Your task to perform on an android device: Search for alienware aurora on target, select the first entry, and add it to the cart. Image 0: 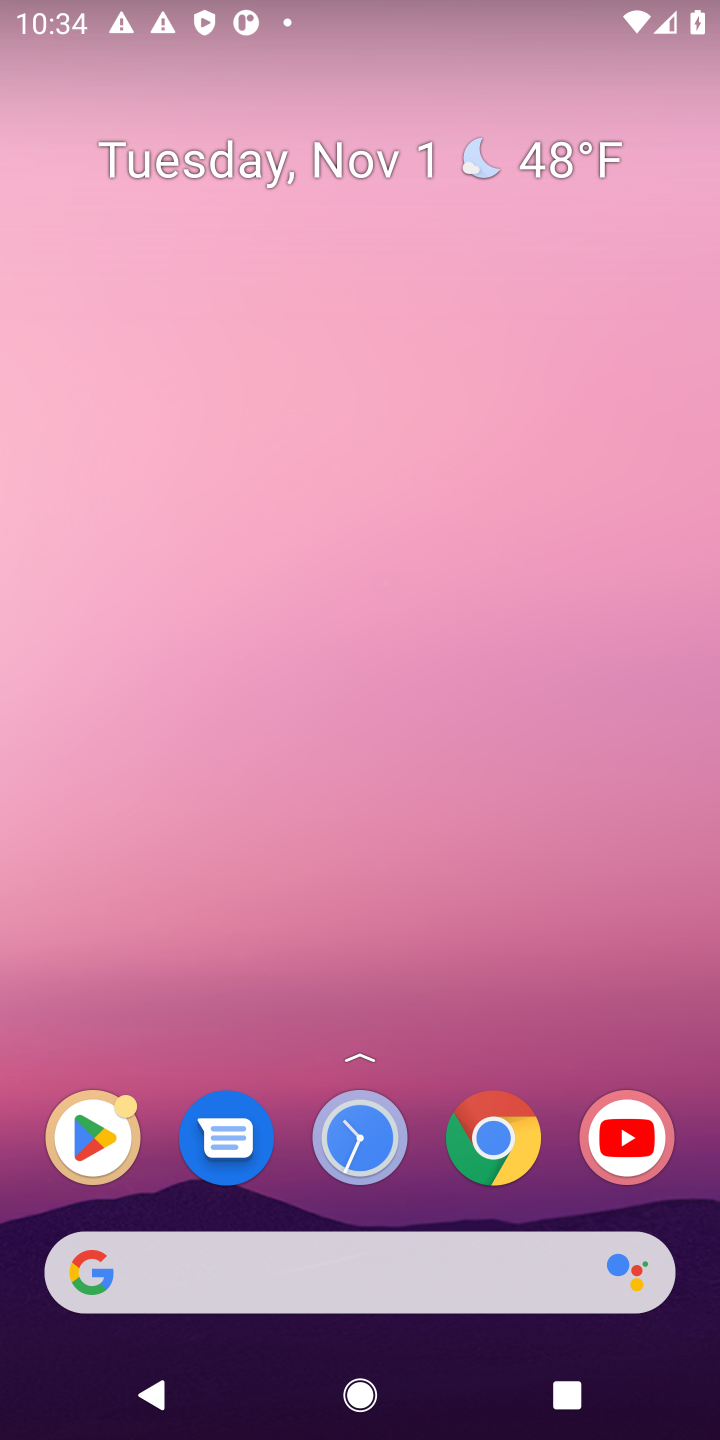
Step 0: click (500, 1151)
Your task to perform on an android device: Search for alienware aurora on target, select the first entry, and add it to the cart. Image 1: 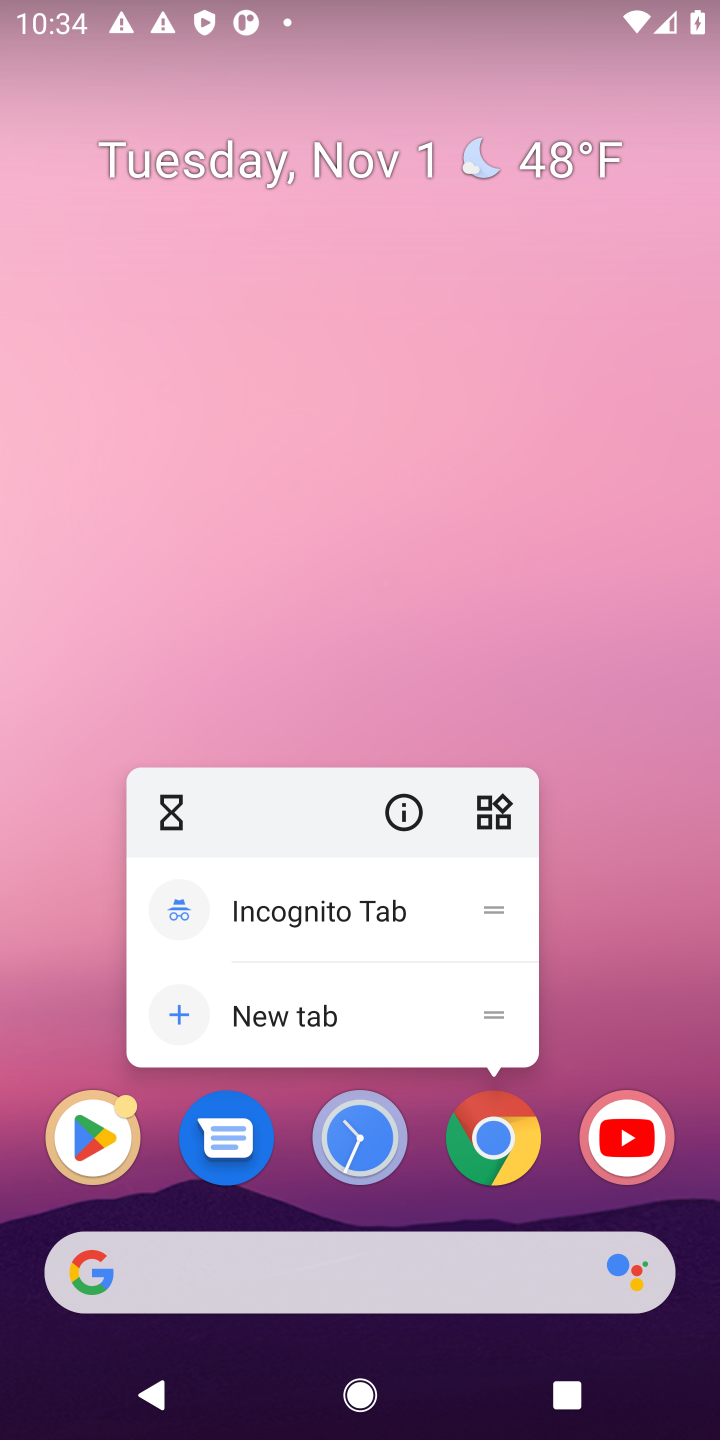
Step 1: click (487, 1145)
Your task to perform on an android device: Search for alienware aurora on target, select the first entry, and add it to the cart. Image 2: 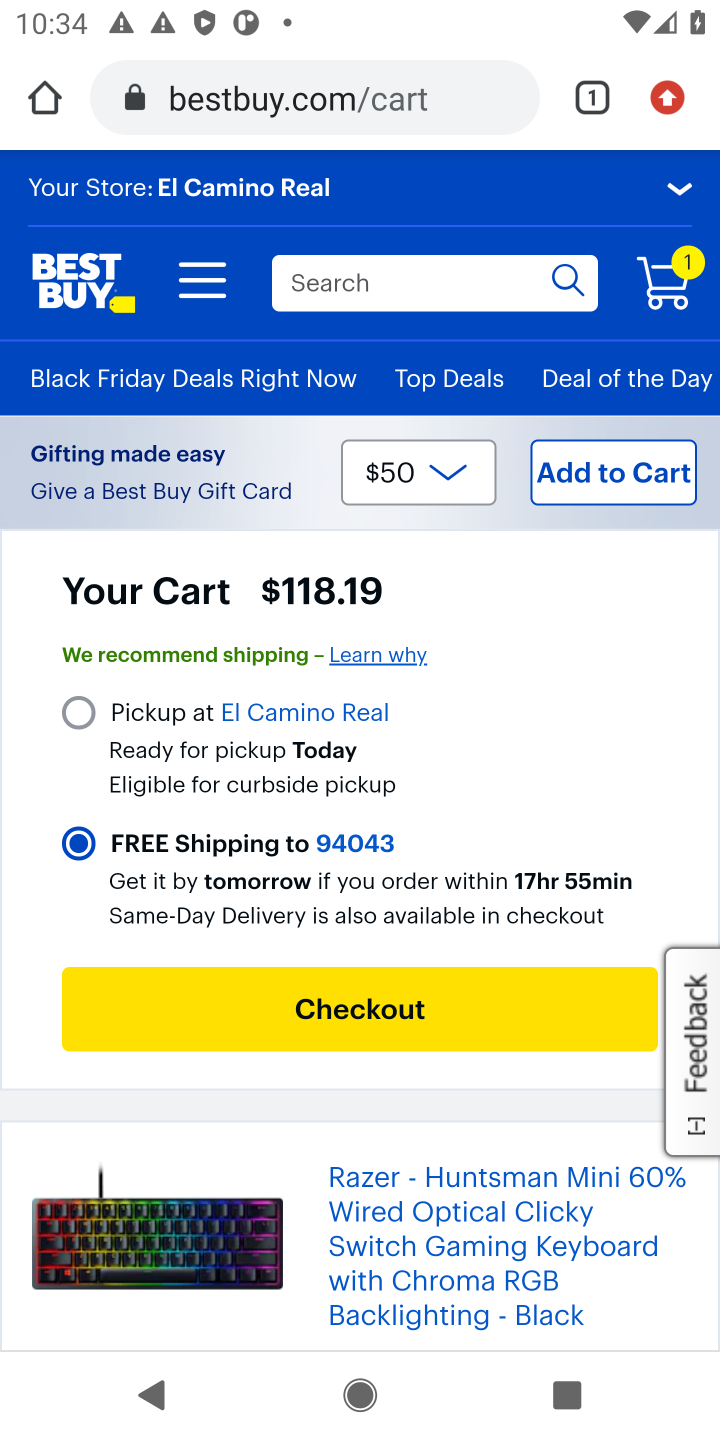
Step 2: click (311, 274)
Your task to perform on an android device: Search for alienware aurora on target, select the first entry, and add it to the cart. Image 3: 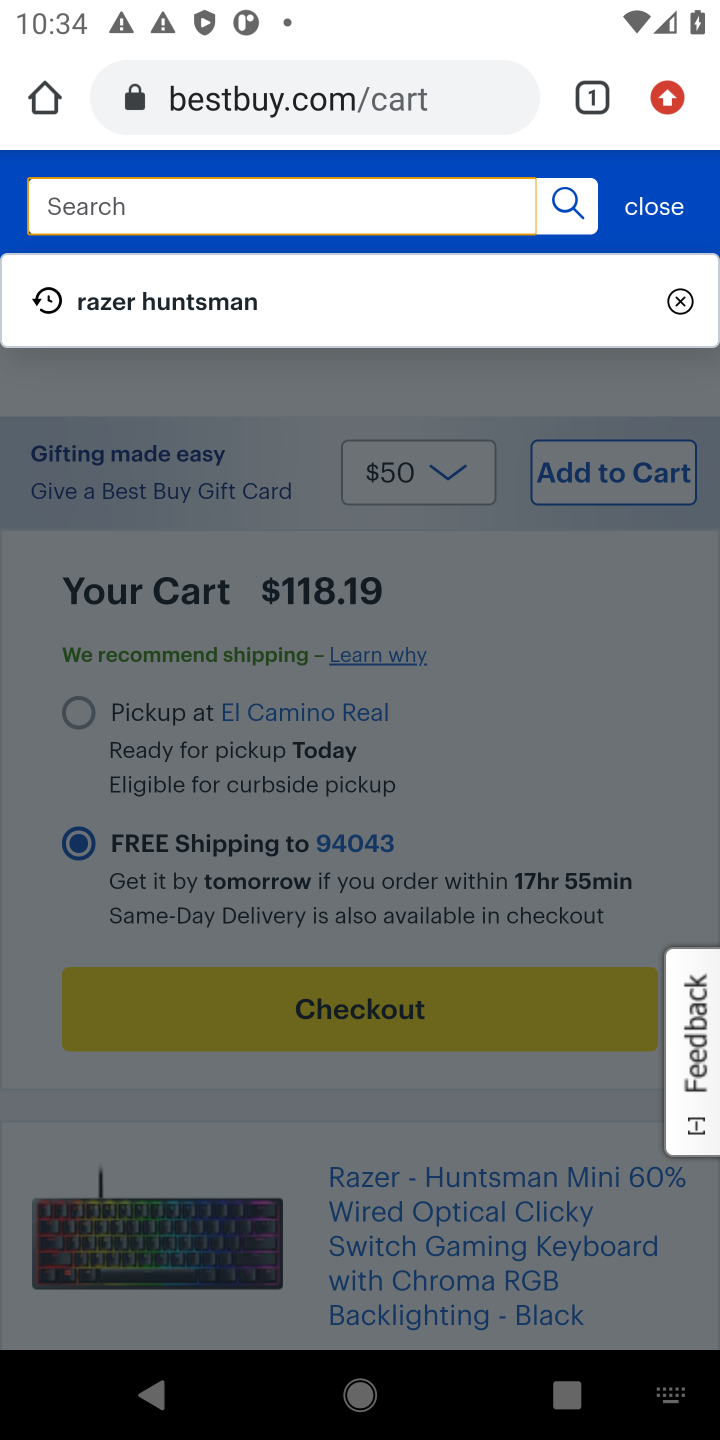
Step 3: type "target"
Your task to perform on an android device: Search for alienware aurora on target, select the first entry, and add it to the cart. Image 4: 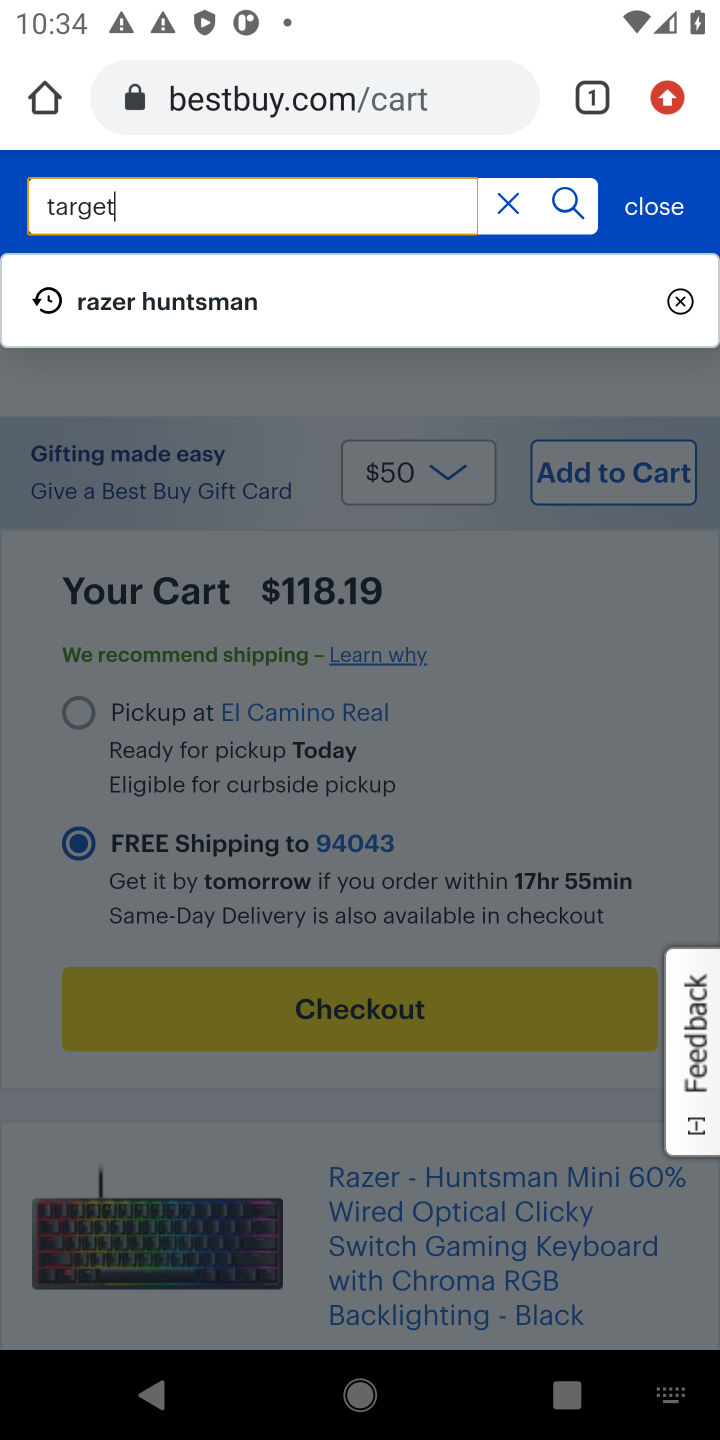
Step 4: type ""
Your task to perform on an android device: Search for alienware aurora on target, select the first entry, and add it to the cart. Image 5: 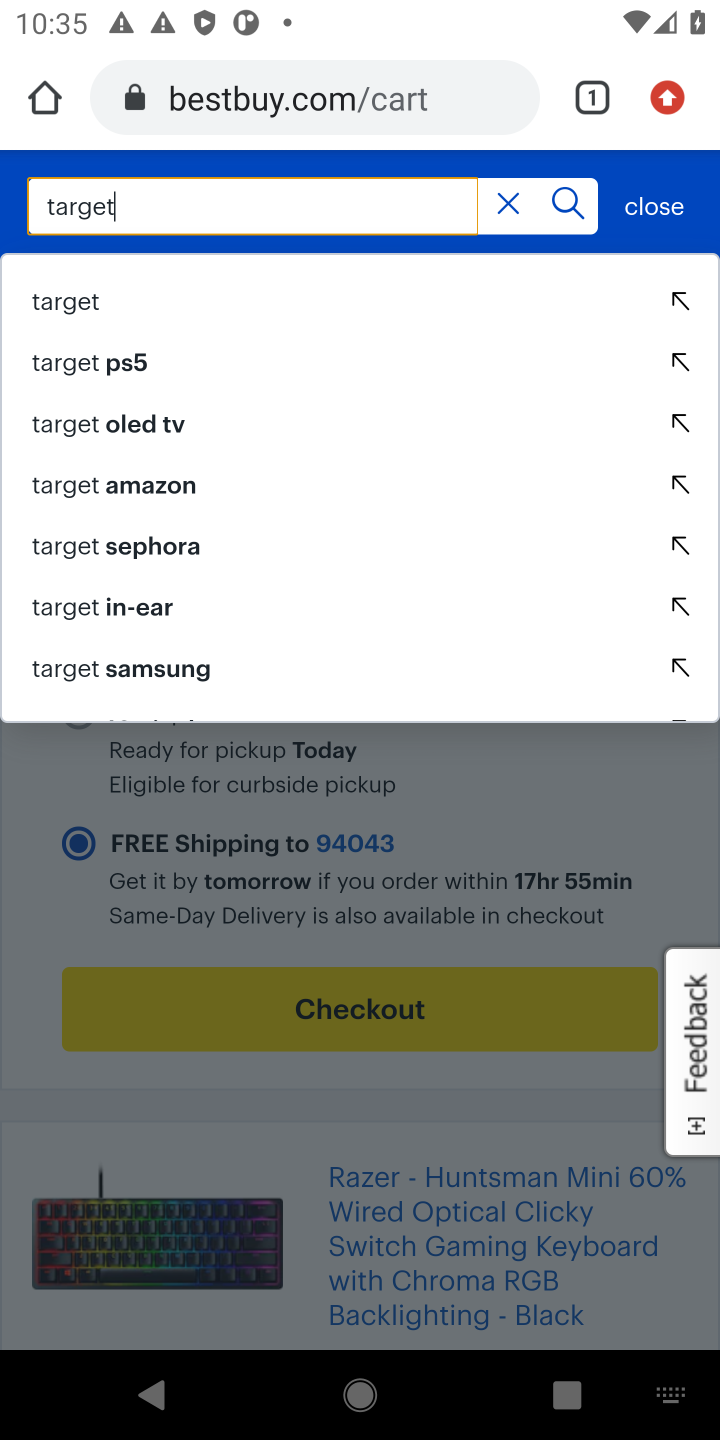
Step 5: click (378, 92)
Your task to perform on an android device: Search for alienware aurora on target, select the first entry, and add it to the cart. Image 6: 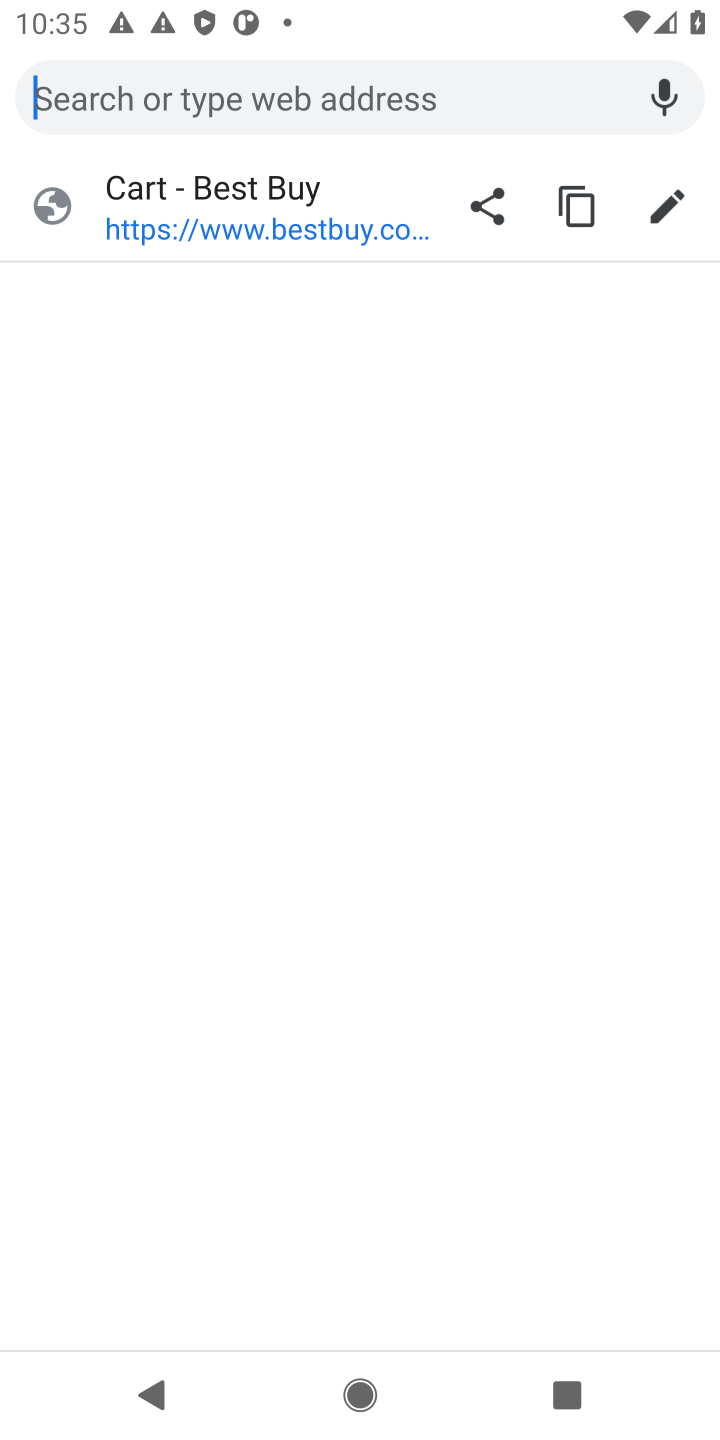
Step 6: type "target"
Your task to perform on an android device: Search for alienware aurora on target, select the first entry, and add it to the cart. Image 7: 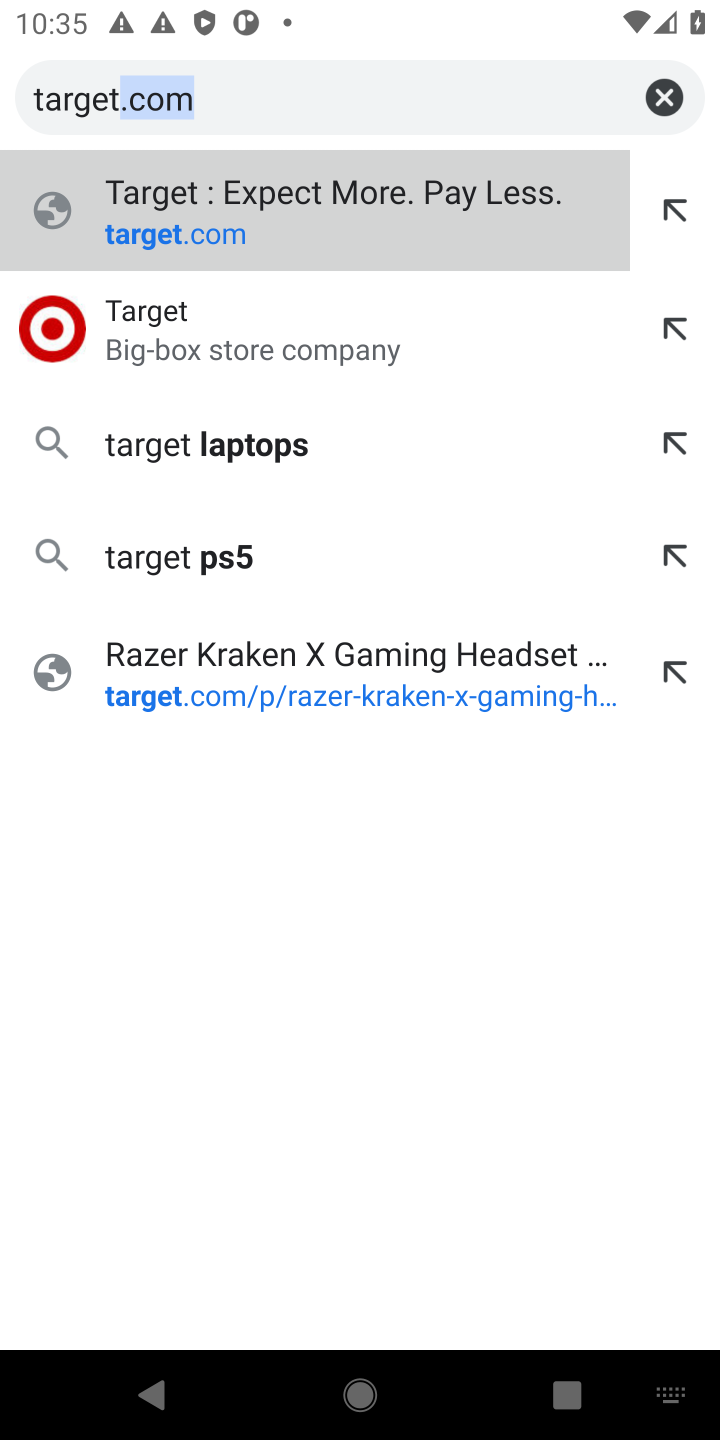
Step 7: click (330, 364)
Your task to perform on an android device: Search for alienware aurora on target, select the first entry, and add it to the cart. Image 8: 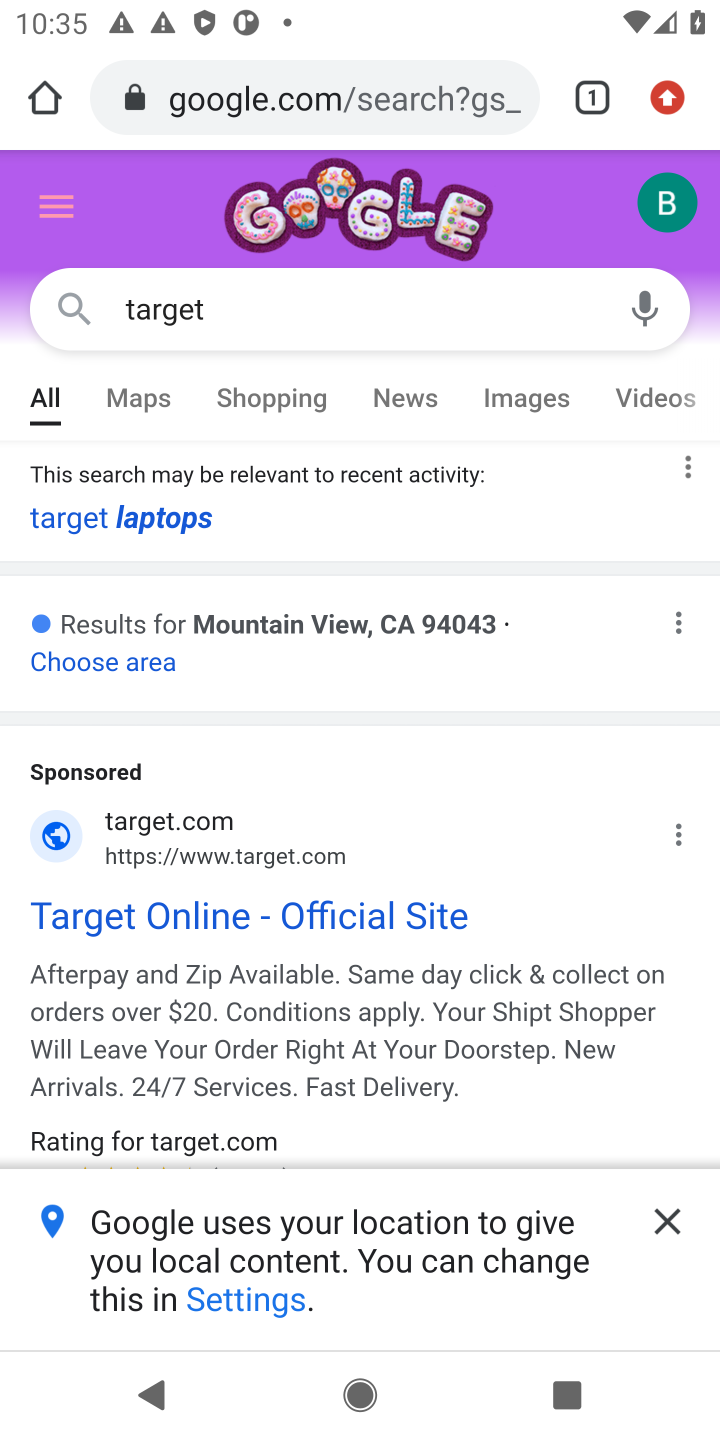
Step 8: click (236, 904)
Your task to perform on an android device: Search for alienware aurora on target, select the first entry, and add it to the cart. Image 9: 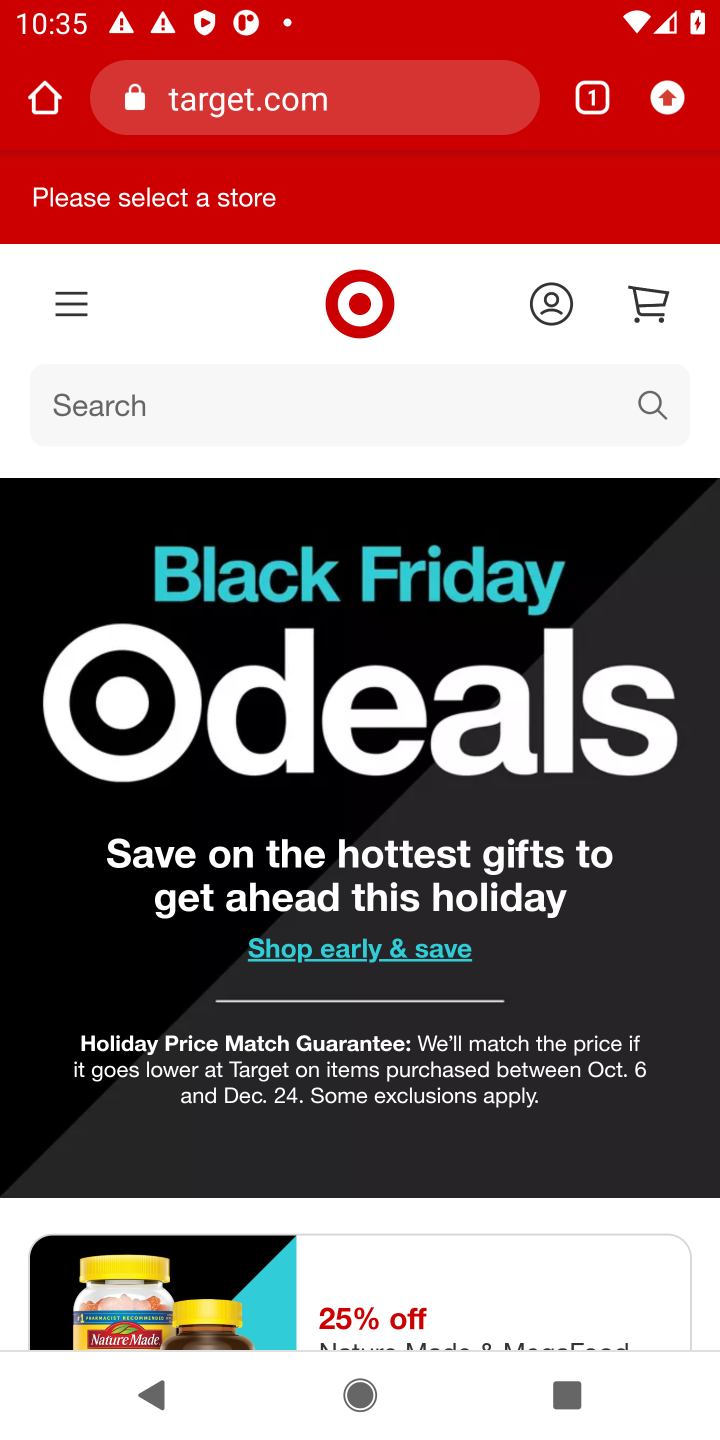
Step 9: click (238, 403)
Your task to perform on an android device: Search for alienware aurora on target, select the first entry, and add it to the cart. Image 10: 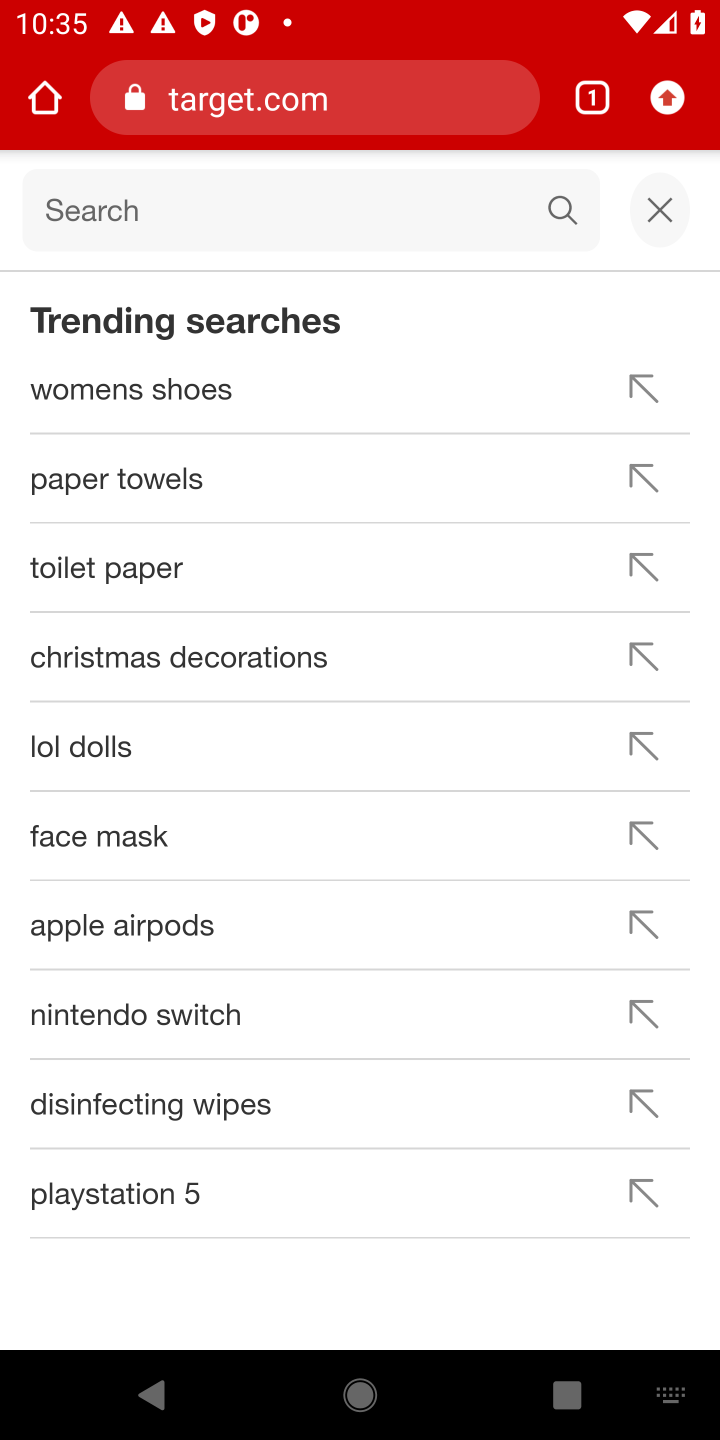
Step 10: type " alienware aurora"
Your task to perform on an android device: Search for alienware aurora on target, select the first entry, and add it to the cart. Image 11: 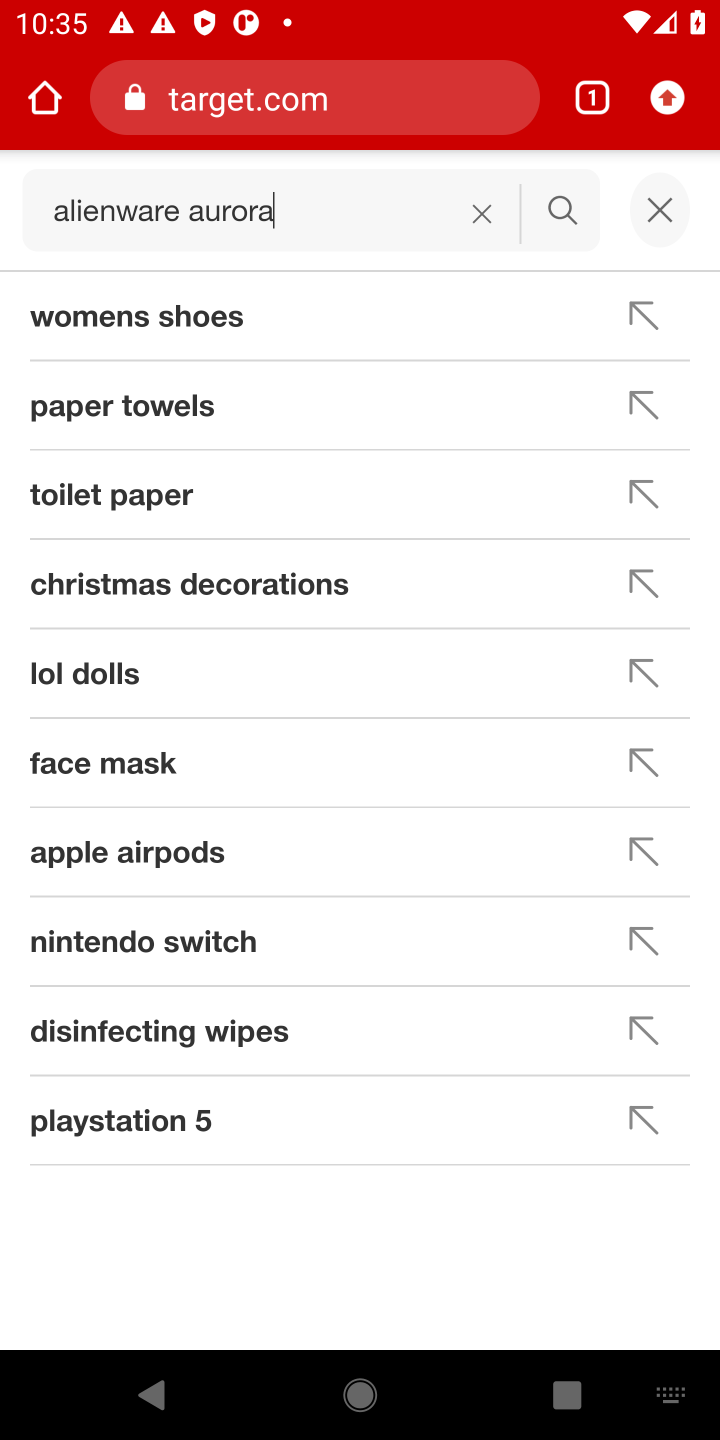
Step 11: type ""
Your task to perform on an android device: Search for alienware aurora on target, select the first entry, and add it to the cart. Image 12: 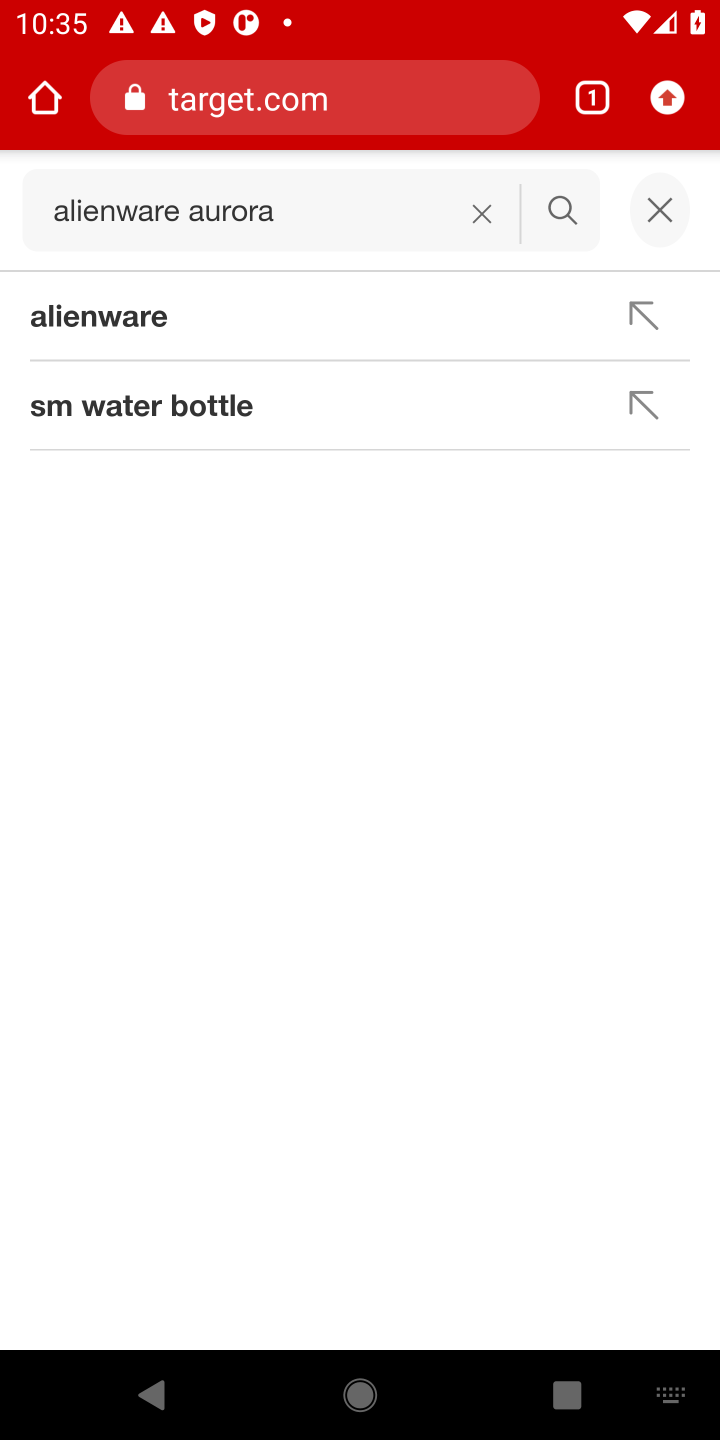
Step 12: press enter
Your task to perform on an android device: Search for alienware aurora on target, select the first entry, and add it to the cart. Image 13: 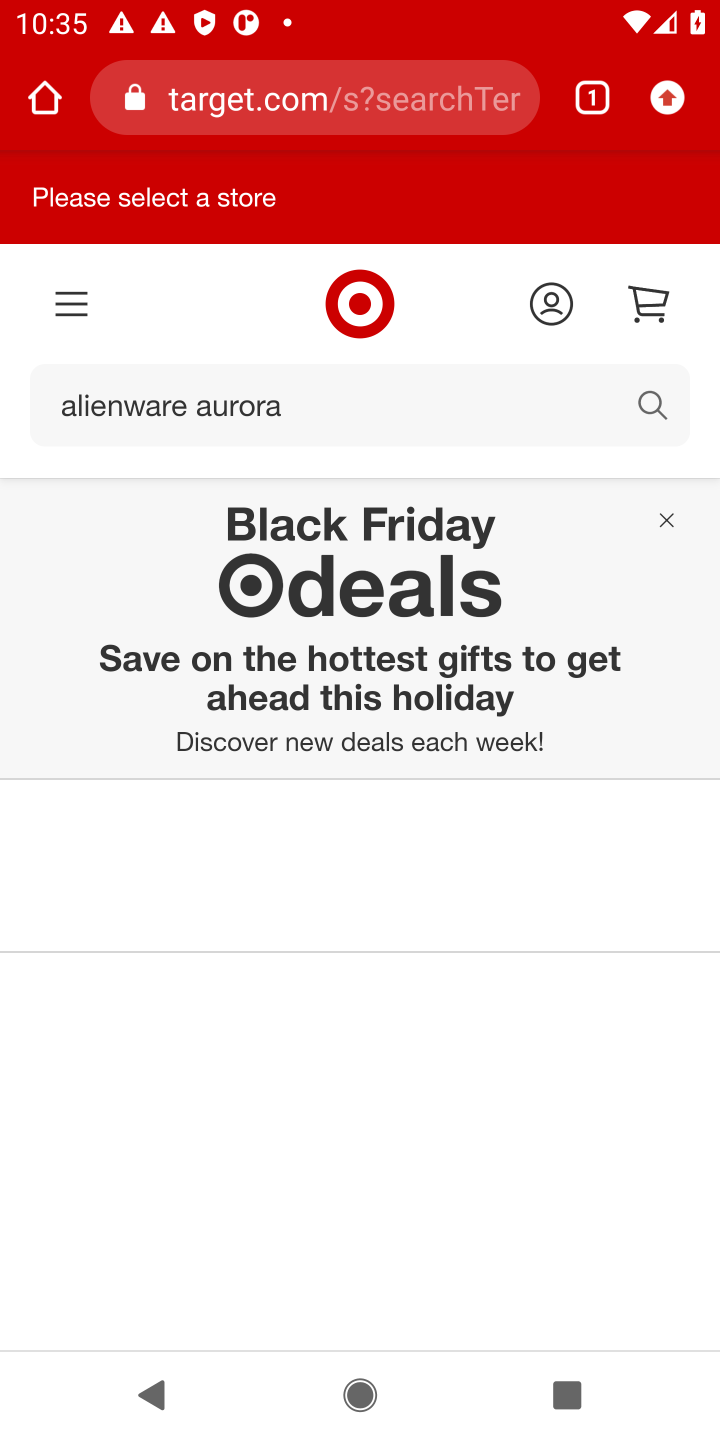
Step 13: click (570, 213)
Your task to perform on an android device: Search for alienware aurora on target, select the first entry, and add it to the cart. Image 14: 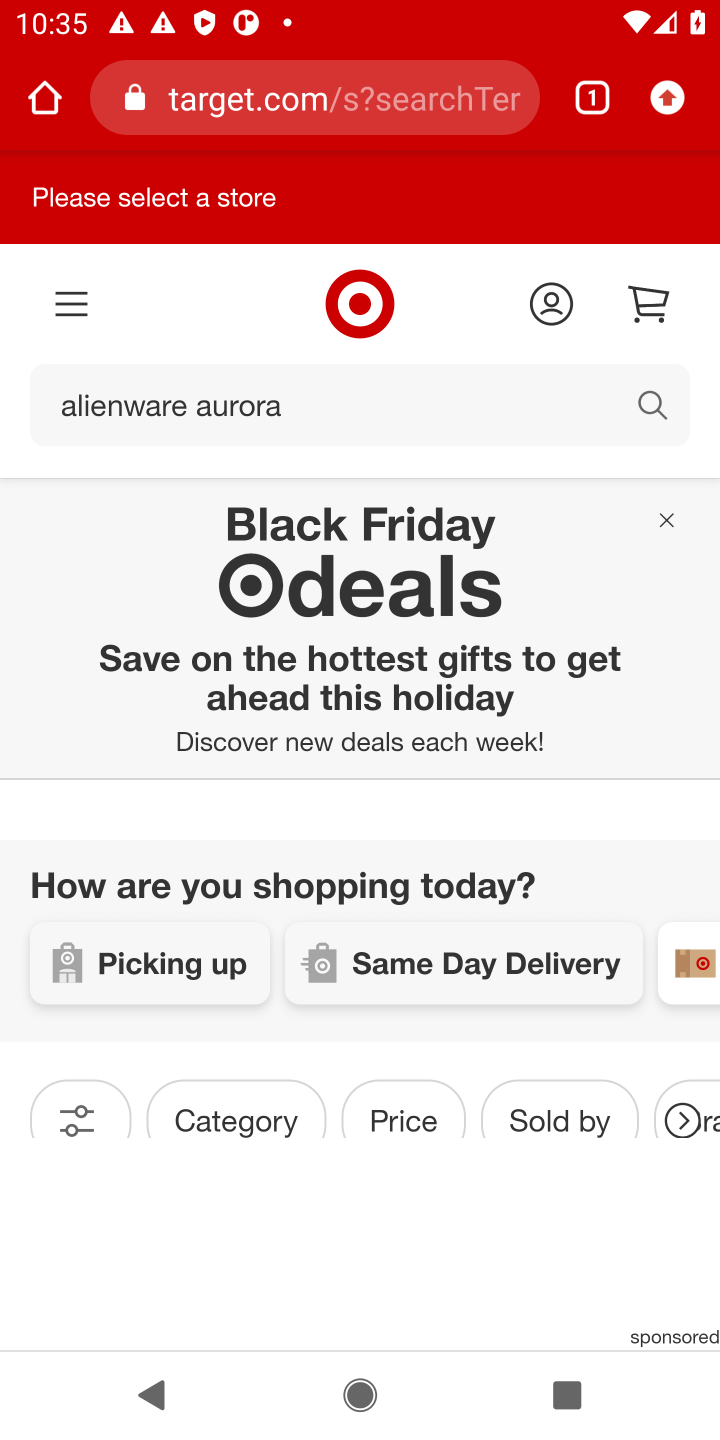
Step 14: click (636, 406)
Your task to perform on an android device: Search for alienware aurora on target, select the first entry, and add it to the cart. Image 15: 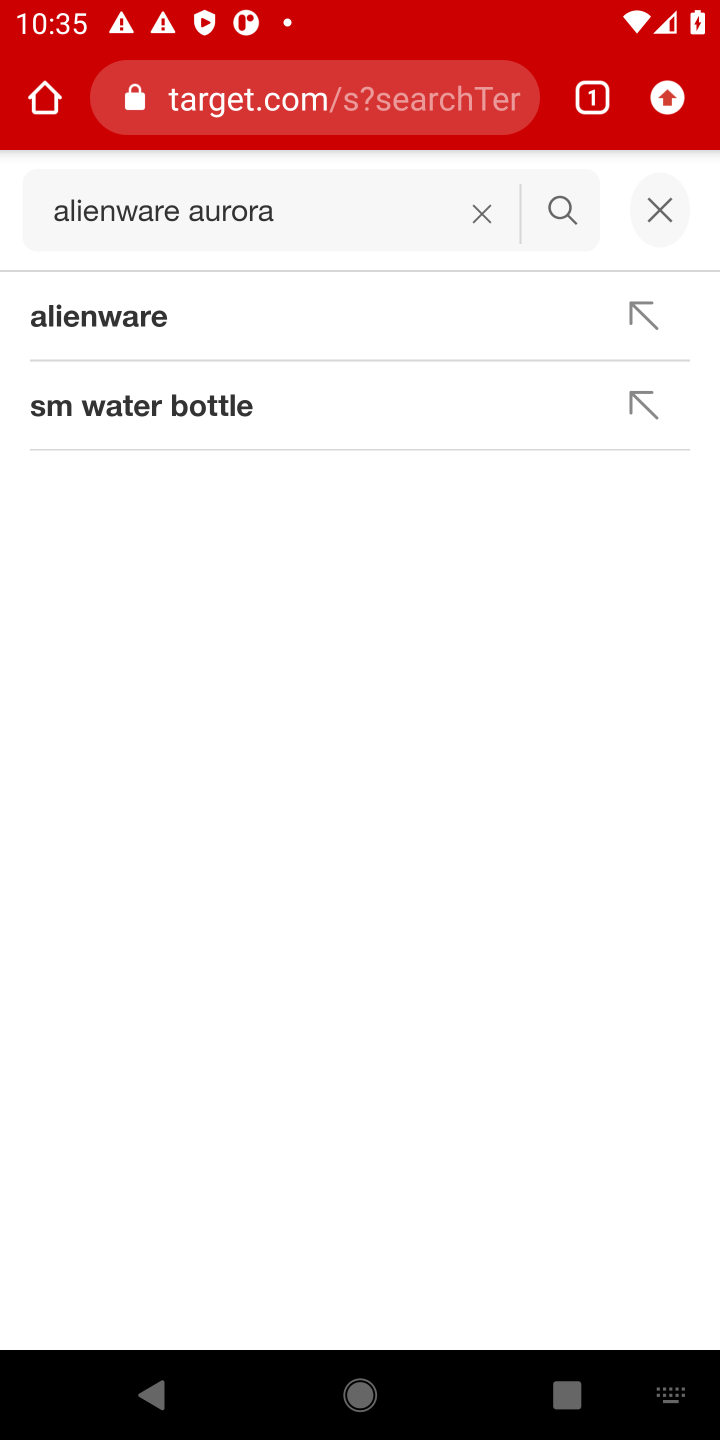
Step 15: click (568, 222)
Your task to perform on an android device: Search for alienware aurora on target, select the first entry, and add it to the cart. Image 16: 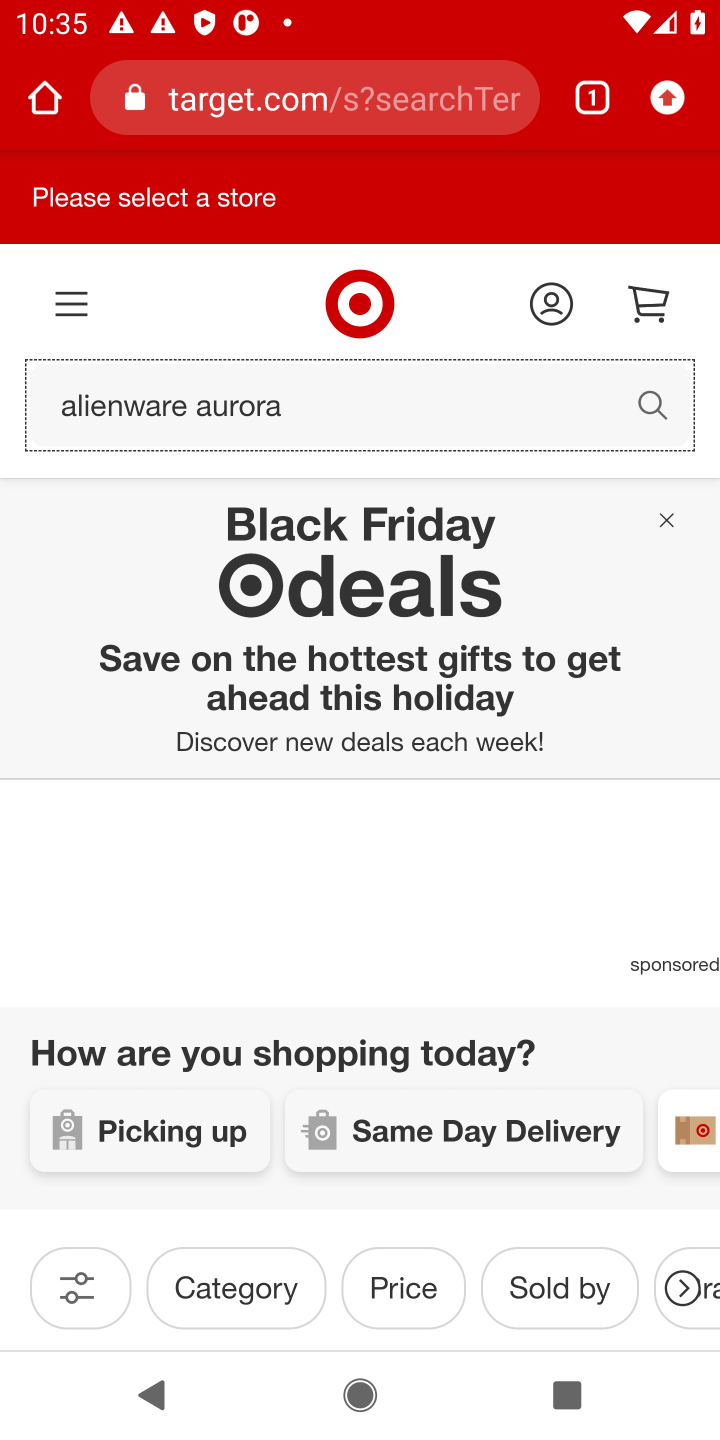
Step 16: drag from (418, 933) to (433, 357)
Your task to perform on an android device: Search for alienware aurora on target, select the first entry, and add it to the cart. Image 17: 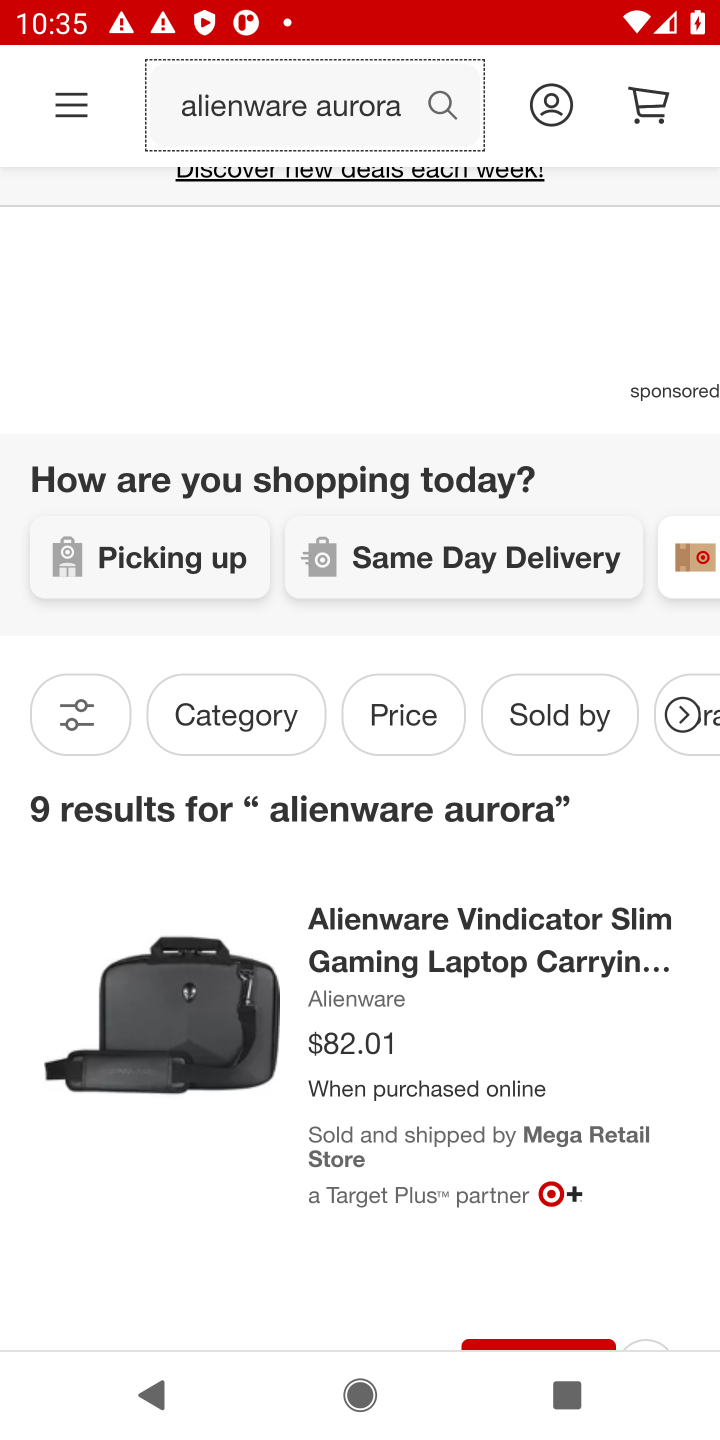
Step 17: click (463, 442)
Your task to perform on an android device: Search for alienware aurora on target, select the first entry, and add it to the cart. Image 18: 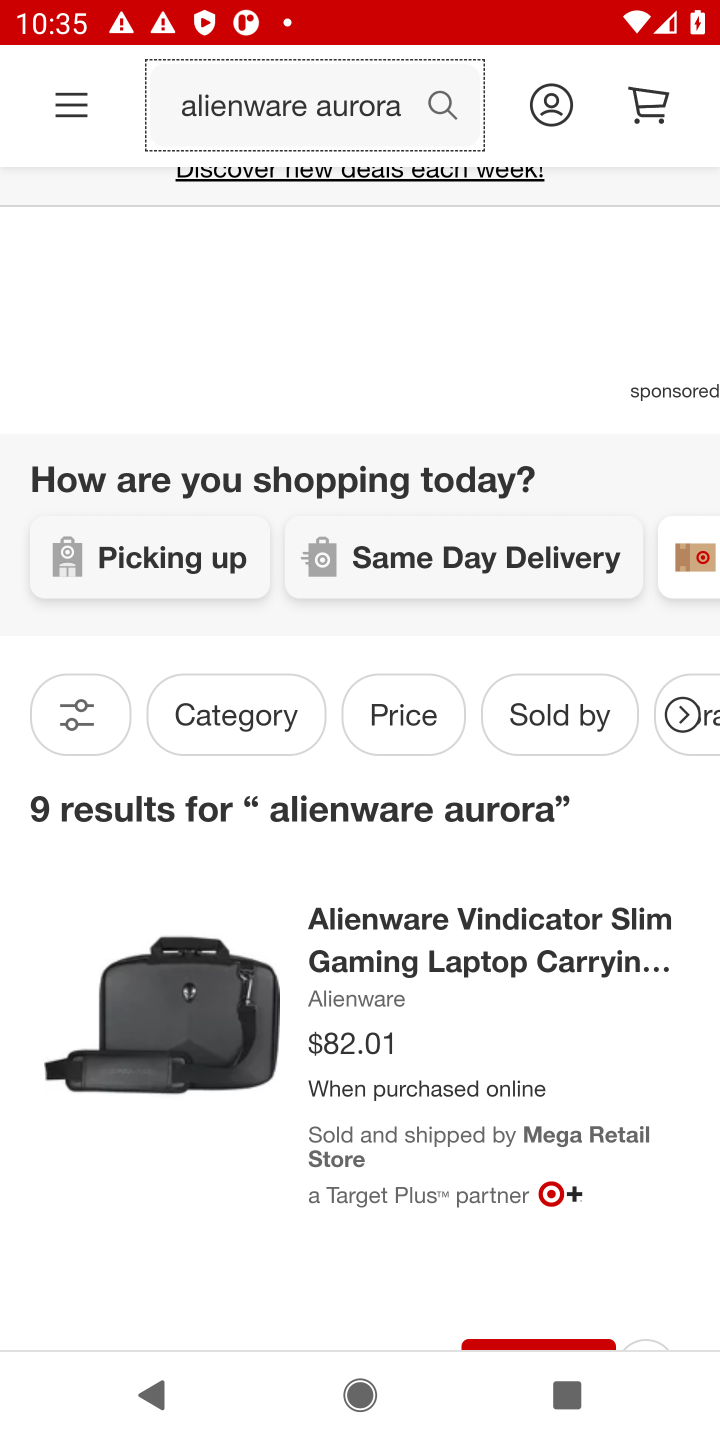
Step 18: drag from (502, 854) to (532, 437)
Your task to perform on an android device: Search for alienware aurora on target, select the first entry, and add it to the cart. Image 19: 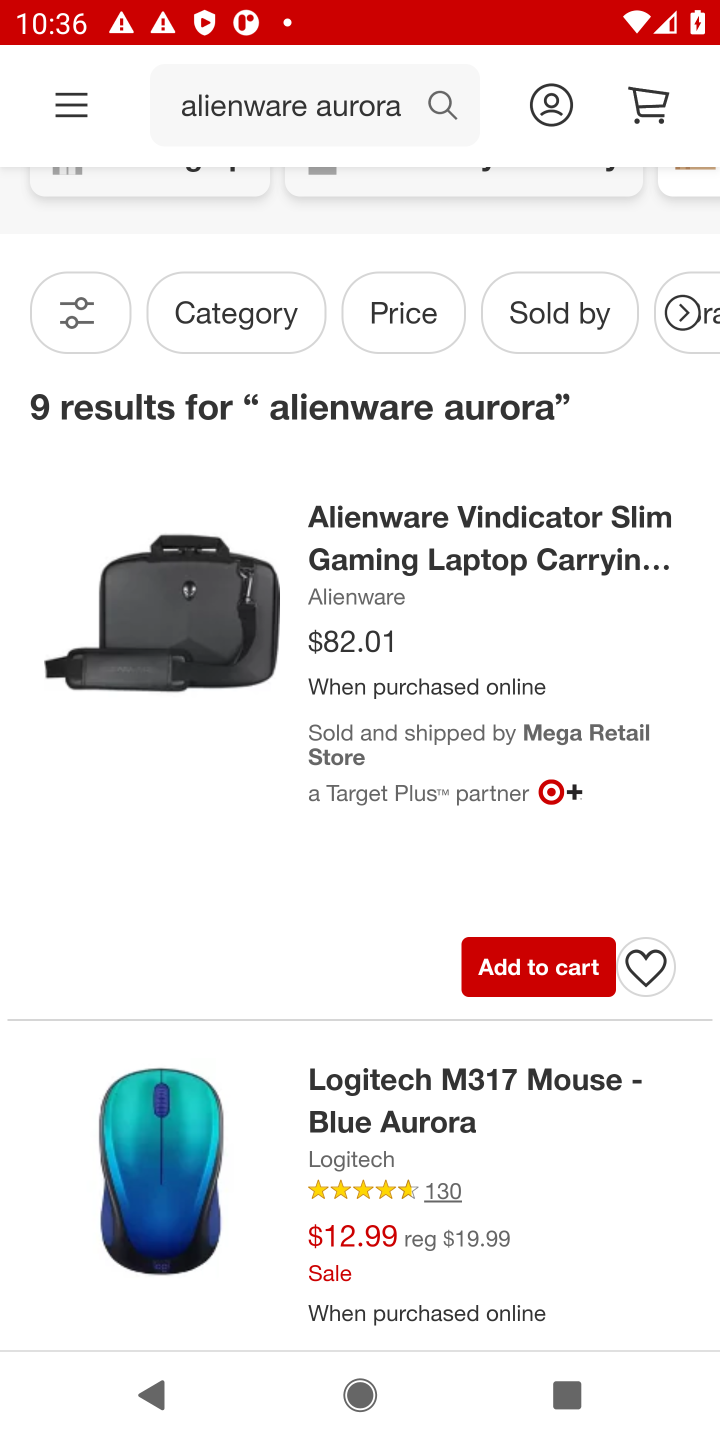
Step 19: drag from (453, 1304) to (518, 542)
Your task to perform on an android device: Search for alienware aurora on target, select the first entry, and add it to the cart. Image 20: 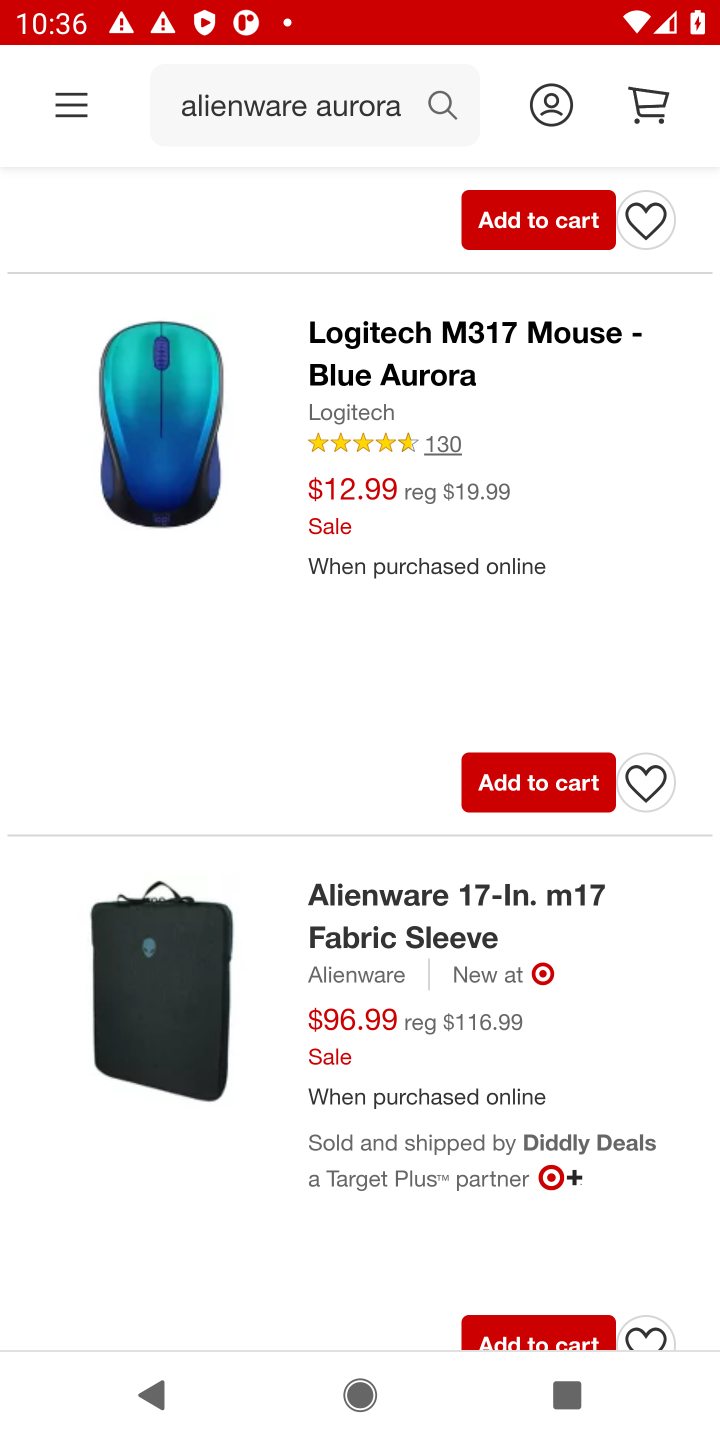
Step 20: drag from (447, 1180) to (444, 588)
Your task to perform on an android device: Search for alienware aurora on target, select the first entry, and add it to the cart. Image 21: 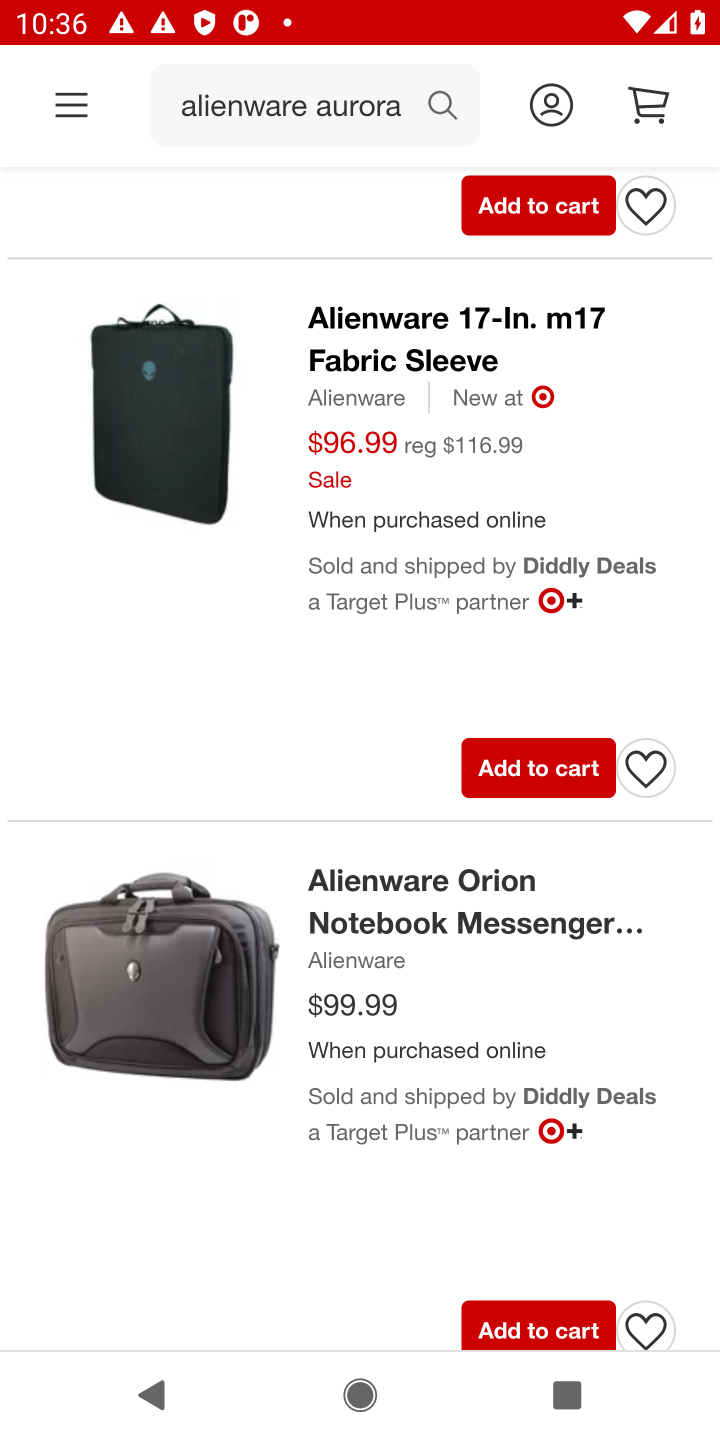
Step 21: drag from (411, 1121) to (500, 318)
Your task to perform on an android device: Search for alienware aurora on target, select the first entry, and add it to the cart. Image 22: 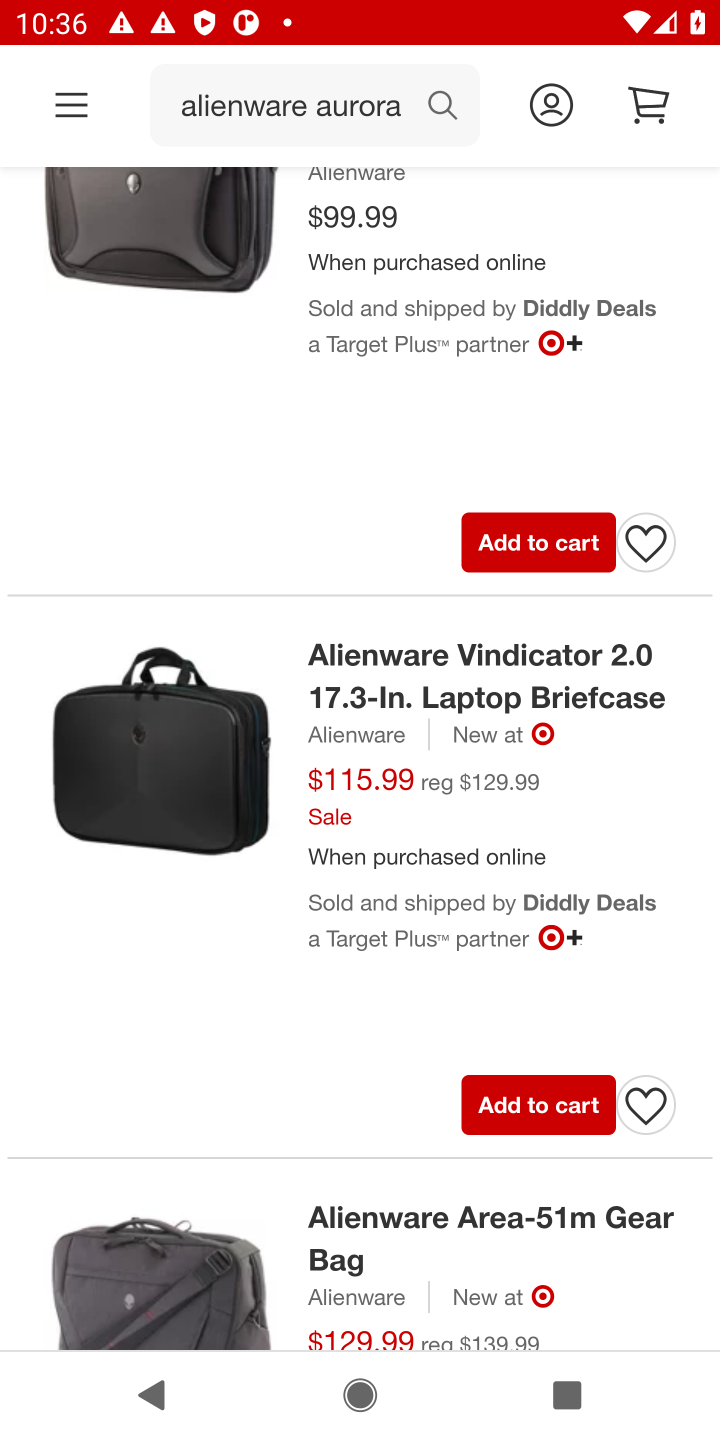
Step 22: drag from (465, 1196) to (453, 362)
Your task to perform on an android device: Search for alienware aurora on target, select the first entry, and add it to the cart. Image 23: 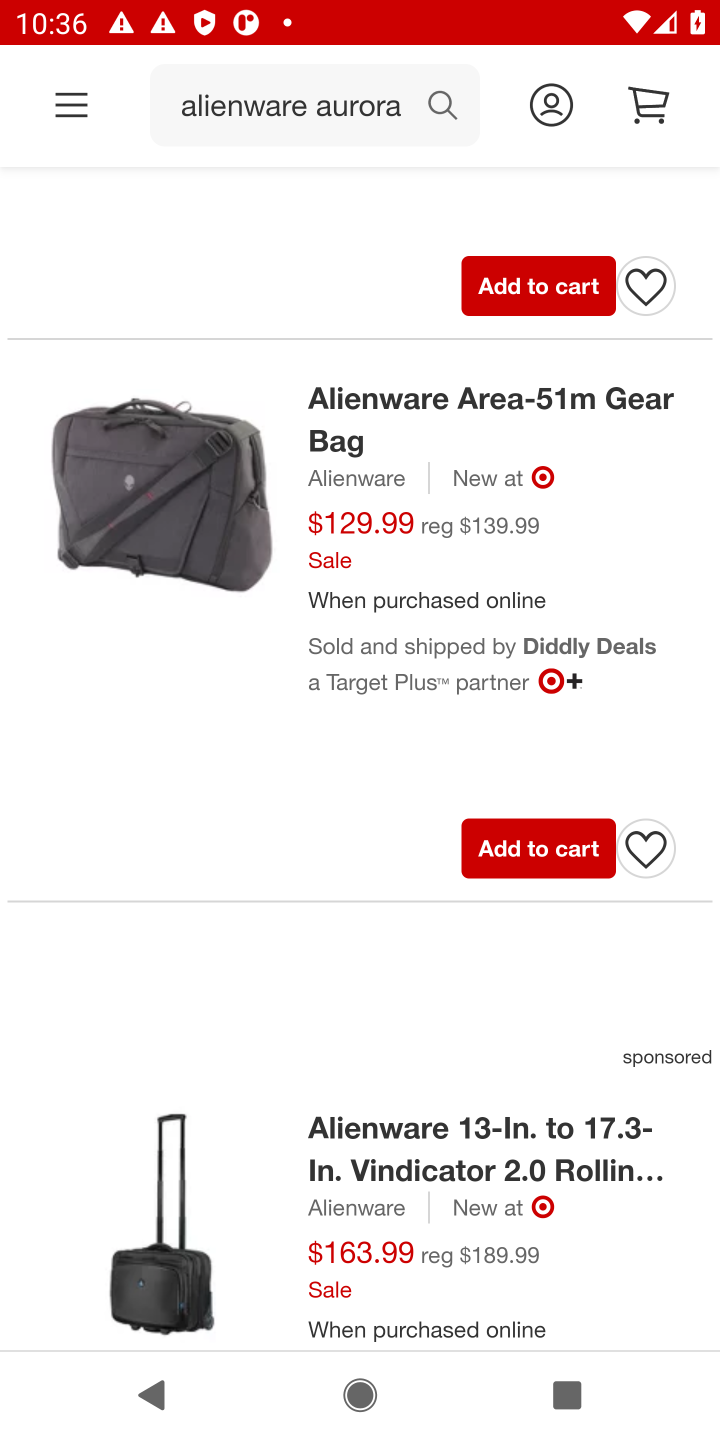
Step 23: drag from (404, 1122) to (390, 238)
Your task to perform on an android device: Search for alienware aurora on target, select the first entry, and add it to the cart. Image 24: 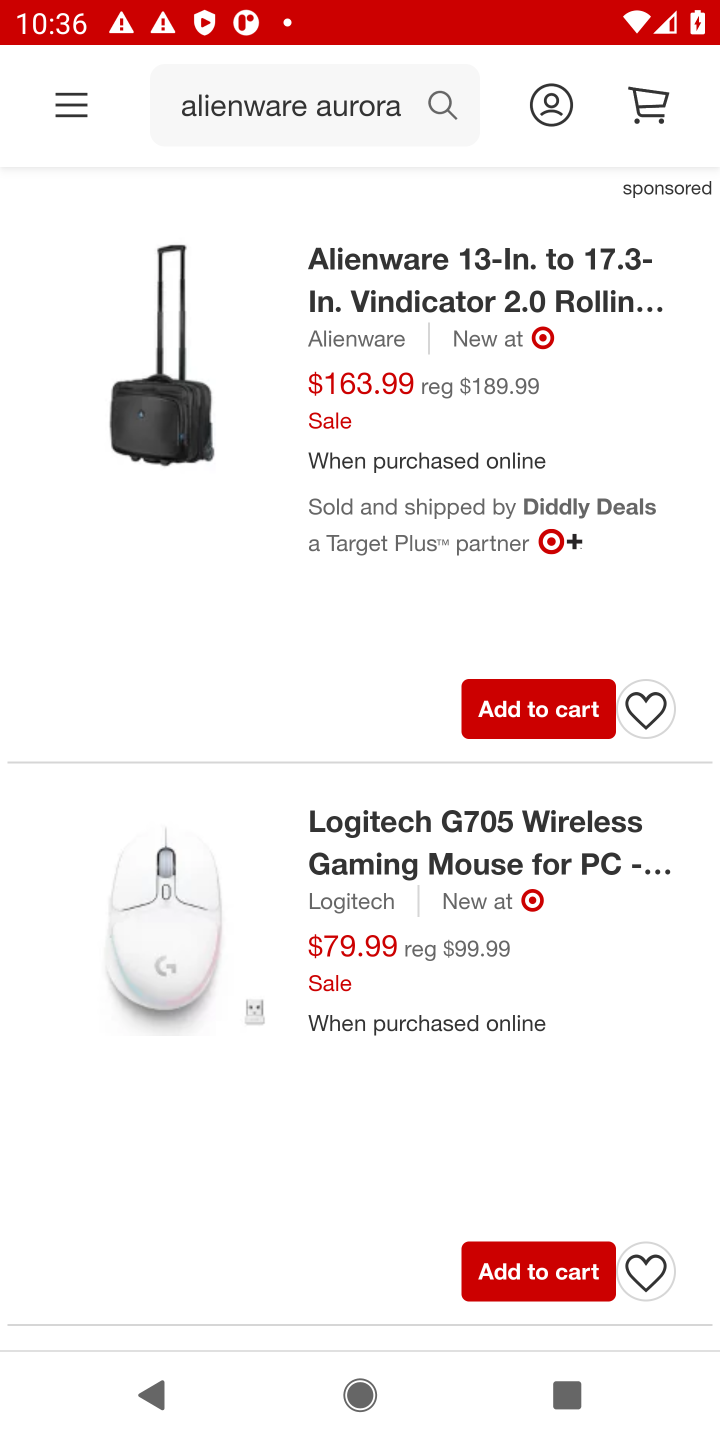
Step 24: drag from (357, 1067) to (339, 404)
Your task to perform on an android device: Search for alienware aurora on target, select the first entry, and add it to the cart. Image 25: 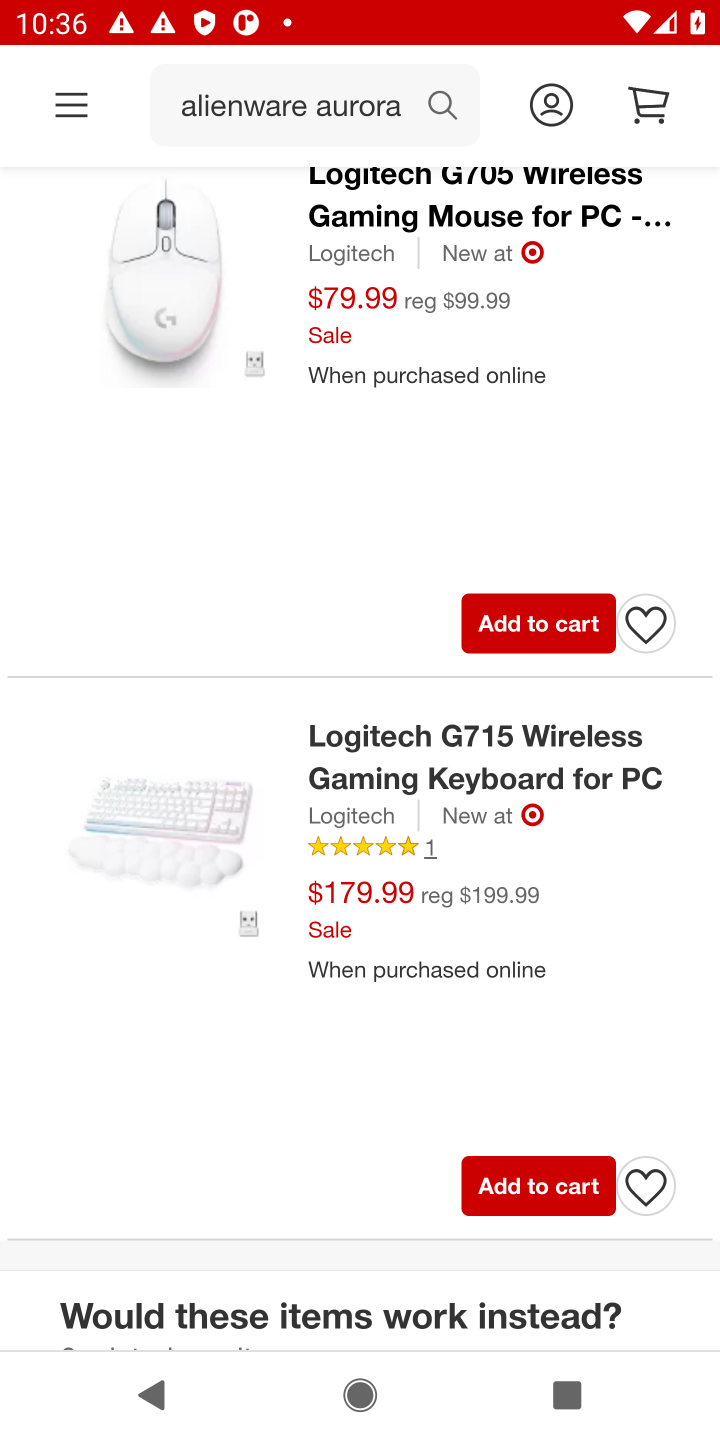
Step 25: drag from (277, 1032) to (358, 345)
Your task to perform on an android device: Search for alienware aurora on target, select the first entry, and add it to the cart. Image 26: 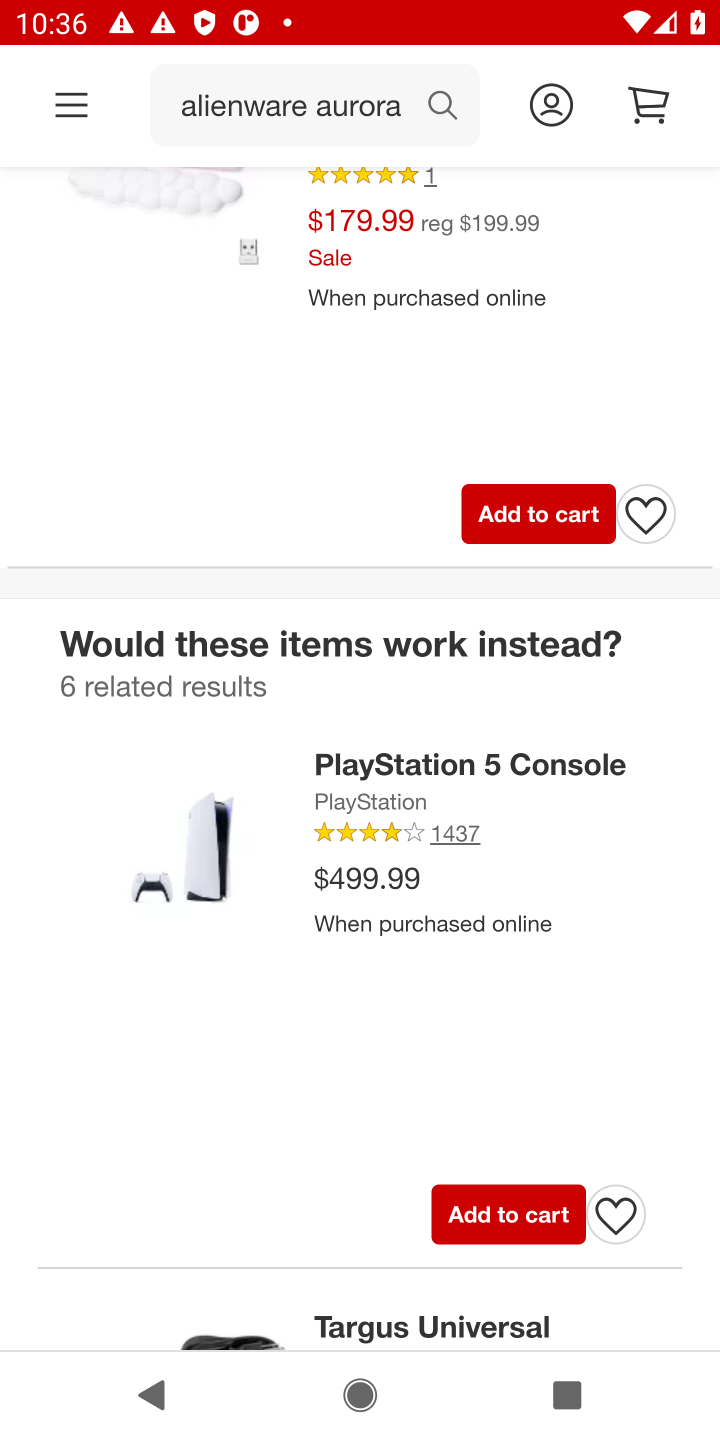
Step 26: drag from (276, 899) to (409, 386)
Your task to perform on an android device: Search for alienware aurora on target, select the first entry, and add it to the cart. Image 27: 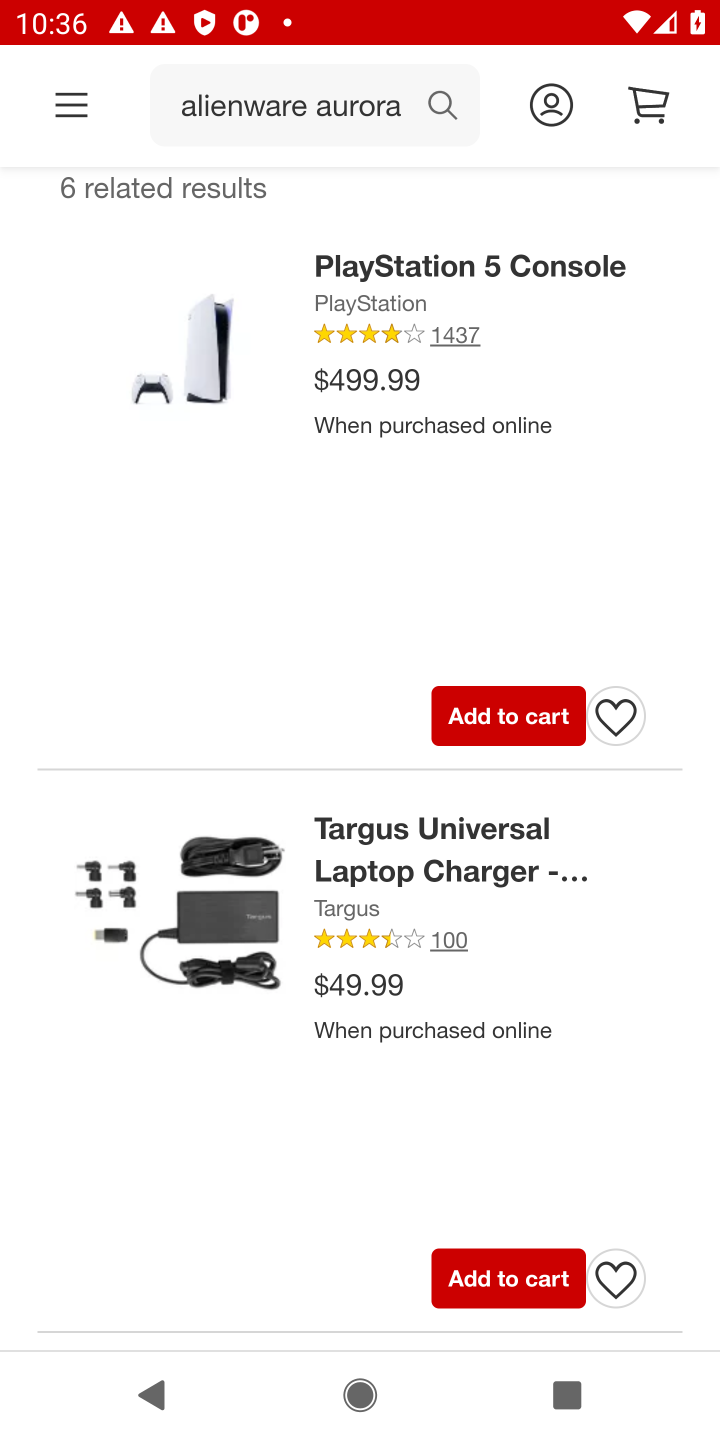
Step 27: press back button
Your task to perform on an android device: Search for alienware aurora on target, select the first entry, and add it to the cart. Image 28: 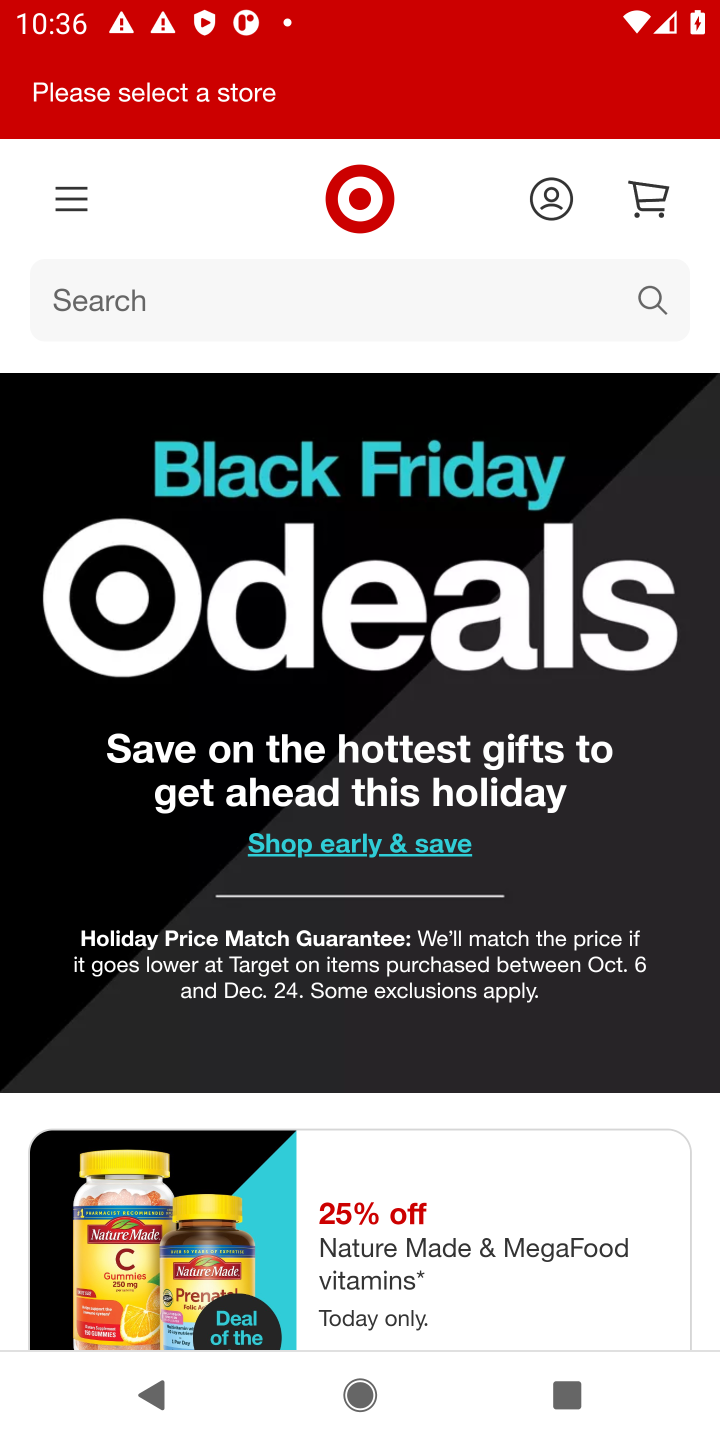
Step 28: click (381, 276)
Your task to perform on an android device: Search for alienware aurora on target, select the first entry, and add it to the cart. Image 29: 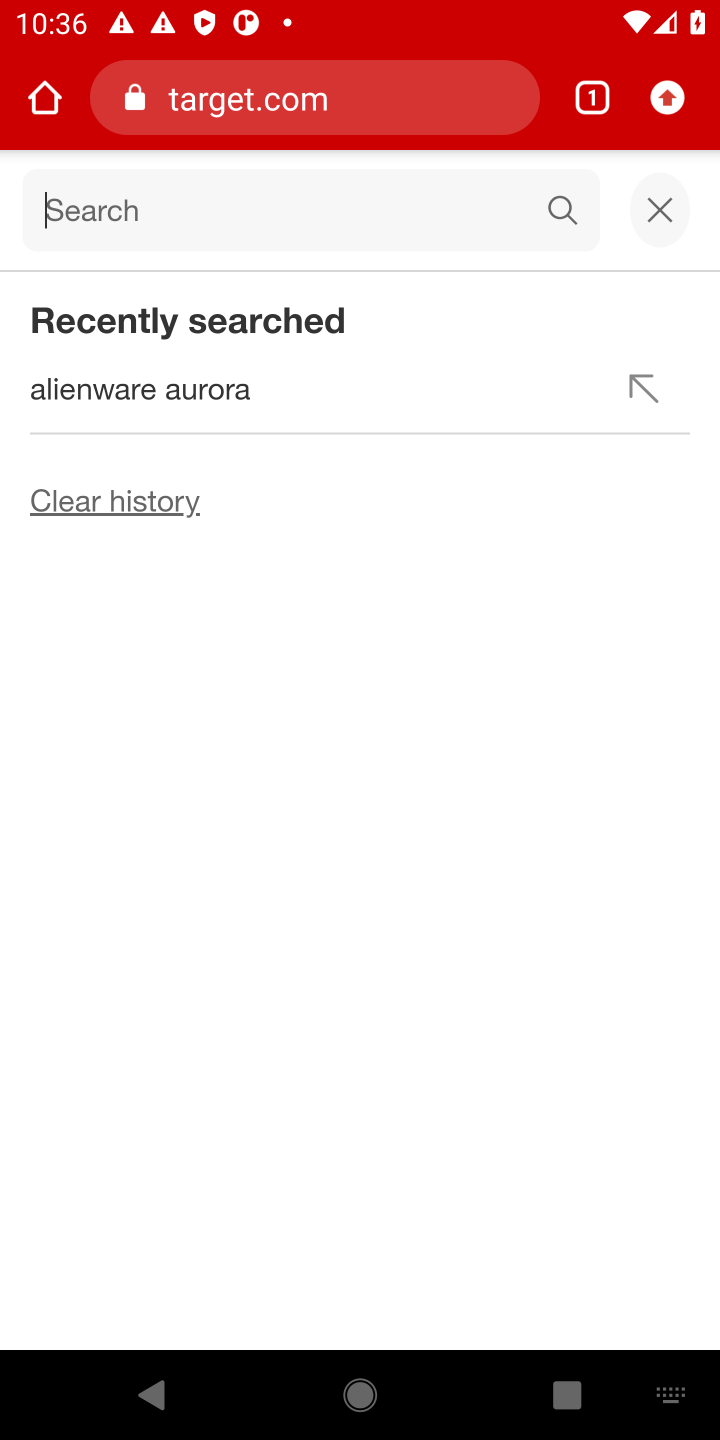
Step 29: type "alienware aurora"
Your task to perform on an android device: Search for alienware aurora on target, select the first entry, and add it to the cart. Image 30: 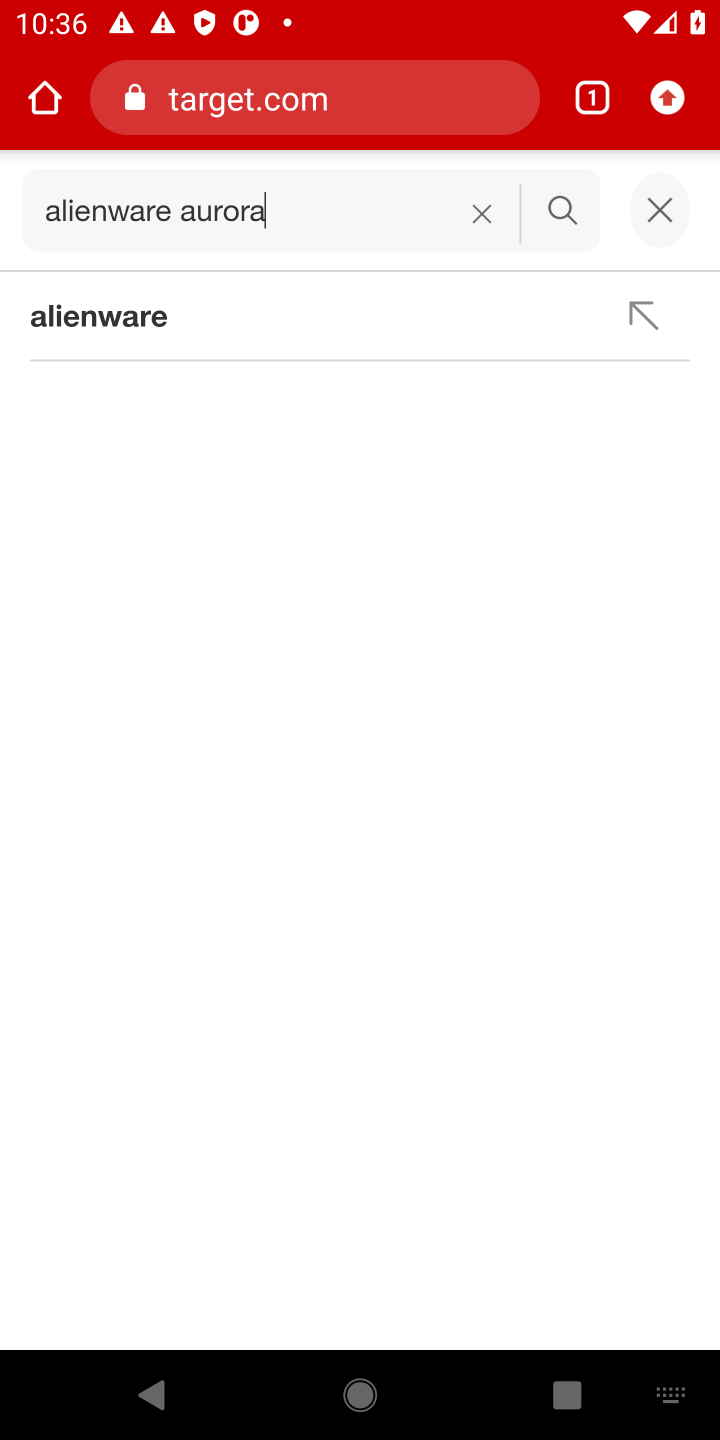
Step 30: type ""
Your task to perform on an android device: Search for alienware aurora on target, select the first entry, and add it to the cart. Image 31: 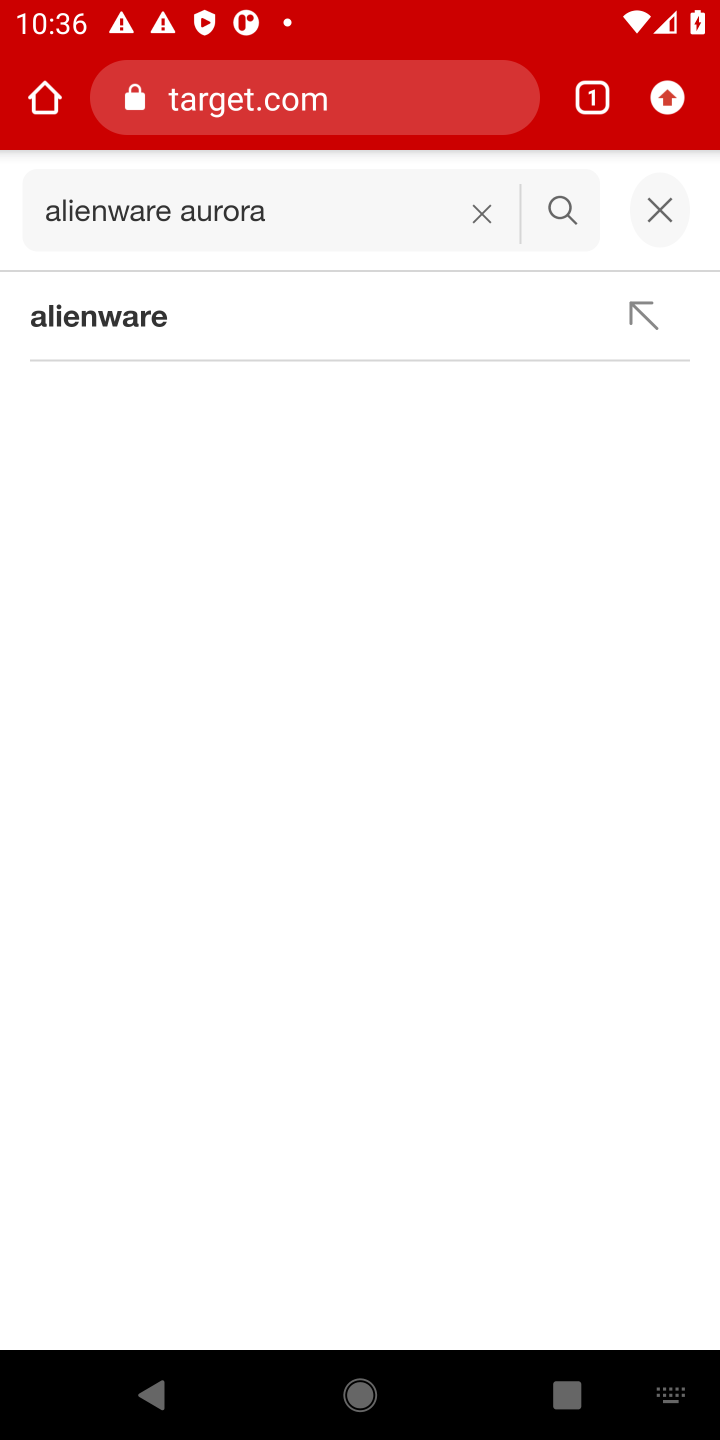
Step 31: press enter
Your task to perform on an android device: Search for alienware aurora on target, select the first entry, and add it to the cart. Image 32: 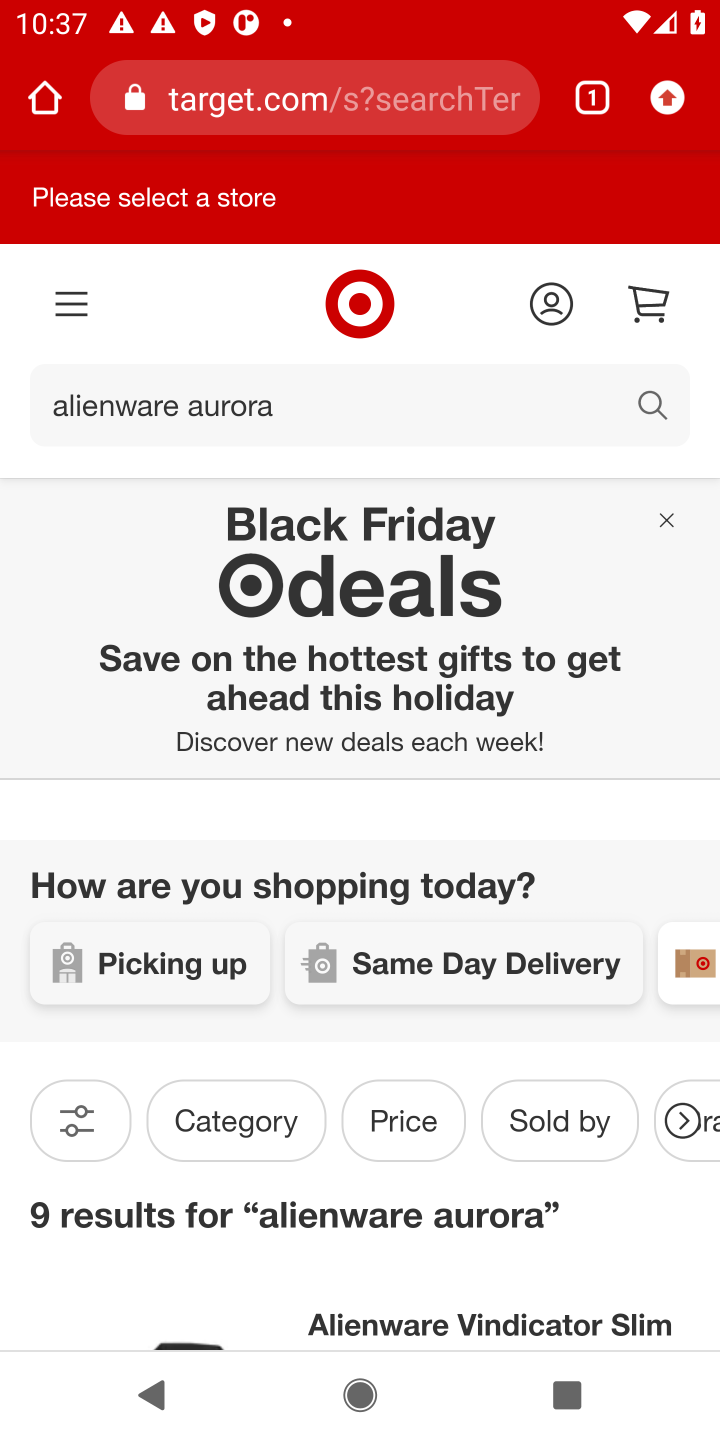
Step 32: task complete